Your task to perform on an android device: Clear the shopping cart on walmart.com. Search for logitech g910 on walmart.com, select the first entry, and add it to the cart. Image 0: 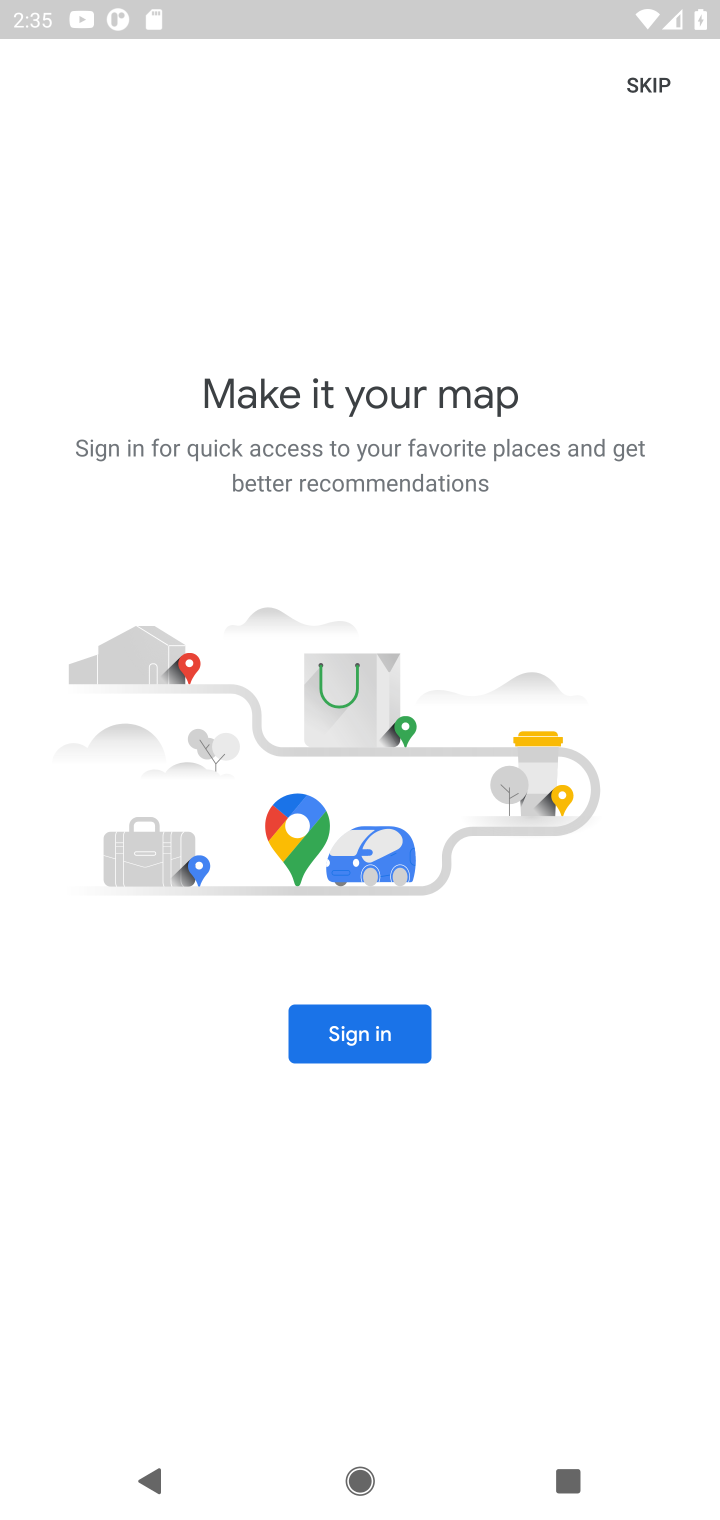
Step 0: press home button
Your task to perform on an android device: Clear the shopping cart on walmart.com. Search for logitech g910 on walmart.com, select the first entry, and add it to the cart. Image 1: 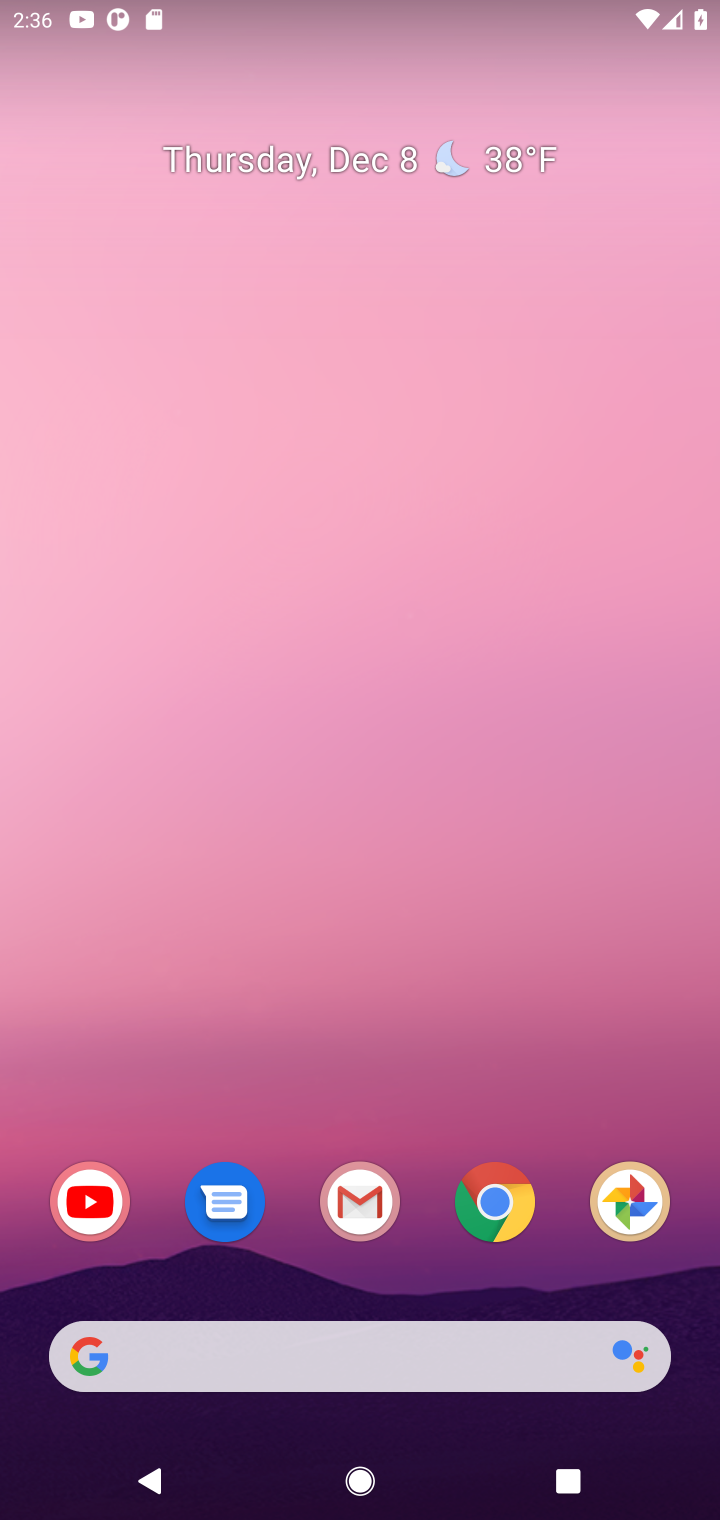
Step 1: click (508, 1194)
Your task to perform on an android device: Clear the shopping cart on walmart.com. Search for logitech g910 on walmart.com, select the first entry, and add it to the cart. Image 2: 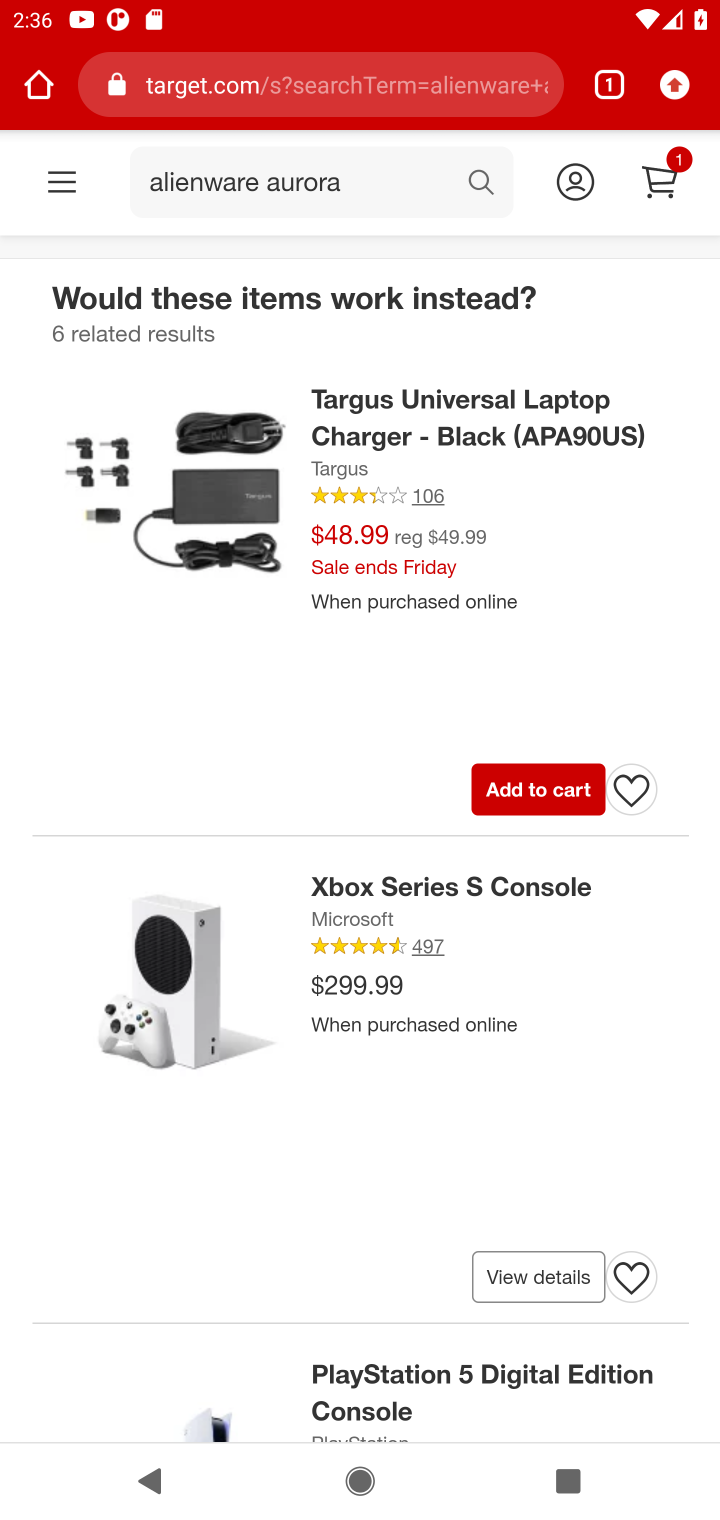
Step 2: click (434, 89)
Your task to perform on an android device: Clear the shopping cart on walmart.com. Search for logitech g910 on walmart.com, select the first entry, and add it to the cart. Image 3: 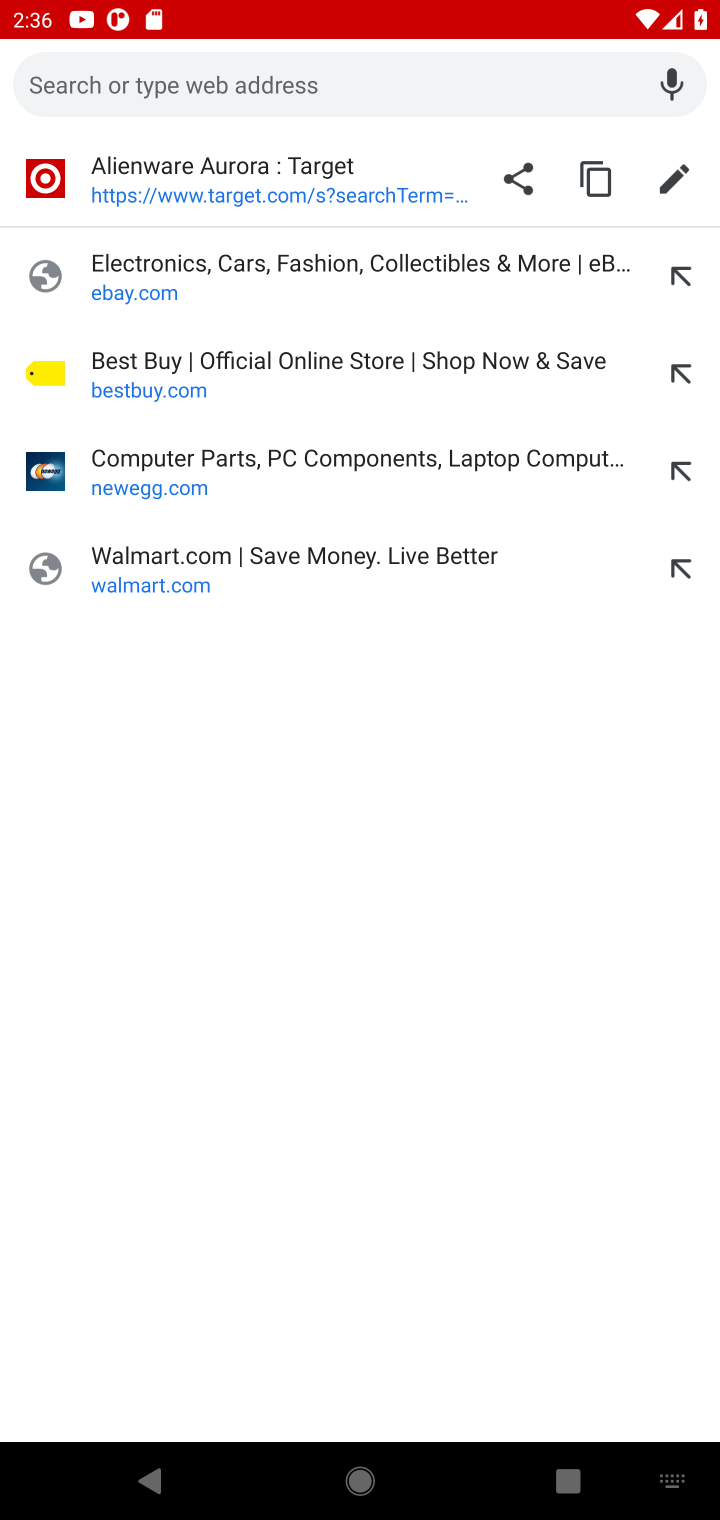
Step 3: click (327, 552)
Your task to perform on an android device: Clear the shopping cart on walmart.com. Search for logitech g910 on walmart.com, select the first entry, and add it to the cart. Image 4: 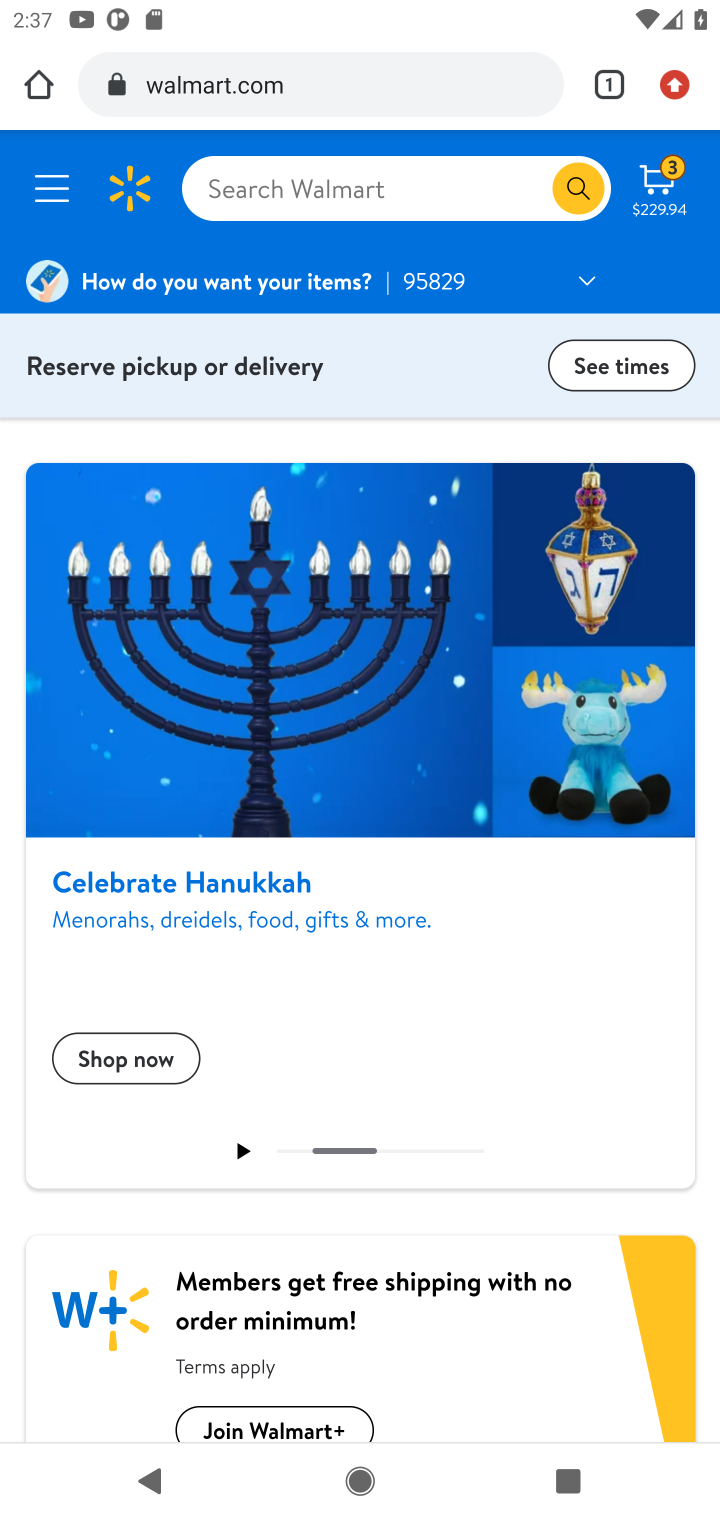
Step 4: click (656, 189)
Your task to perform on an android device: Clear the shopping cart on walmart.com. Search for logitech g910 on walmart.com, select the first entry, and add it to the cart. Image 5: 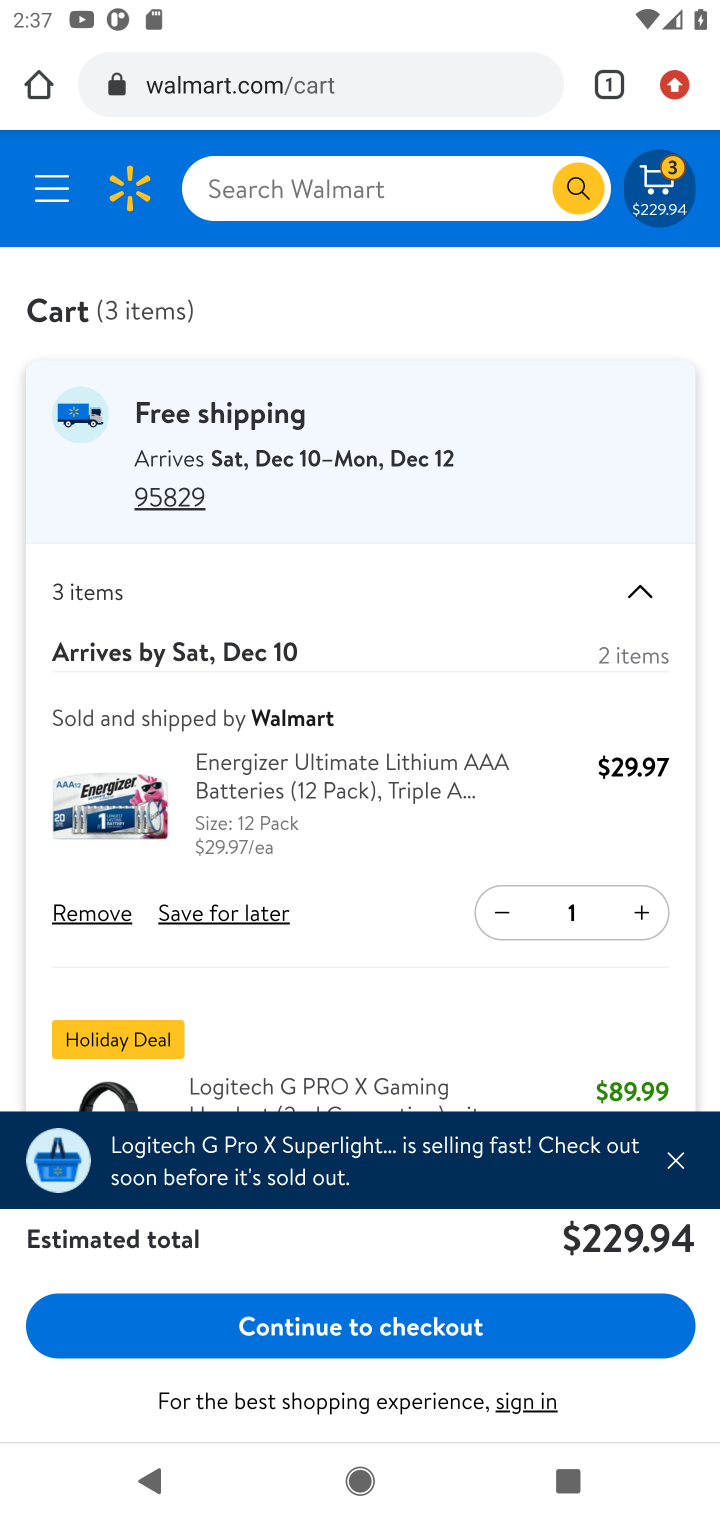
Step 5: click (74, 915)
Your task to perform on an android device: Clear the shopping cart on walmart.com. Search for logitech g910 on walmart.com, select the first entry, and add it to the cart. Image 6: 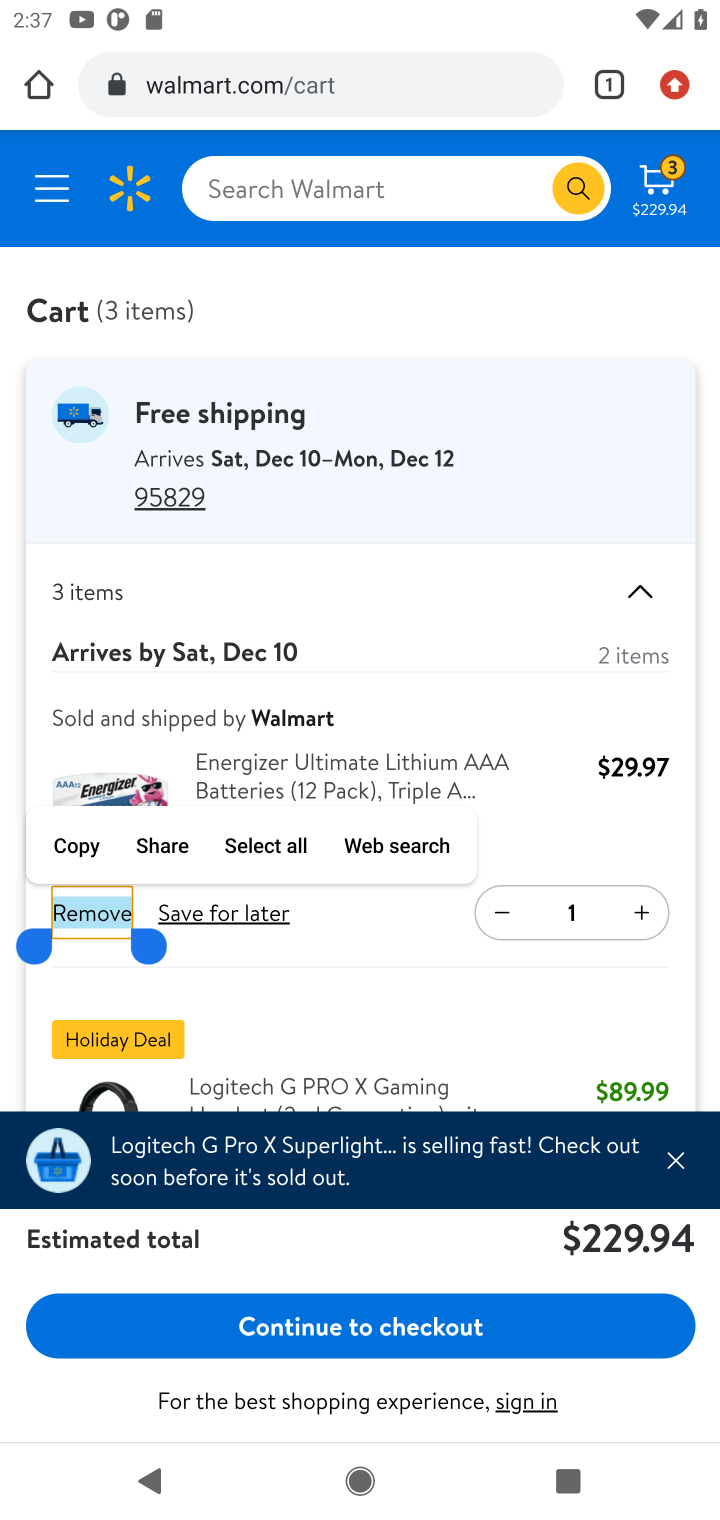
Step 6: click (299, 965)
Your task to perform on an android device: Clear the shopping cart on walmart.com. Search for logitech g910 on walmart.com, select the first entry, and add it to the cart. Image 7: 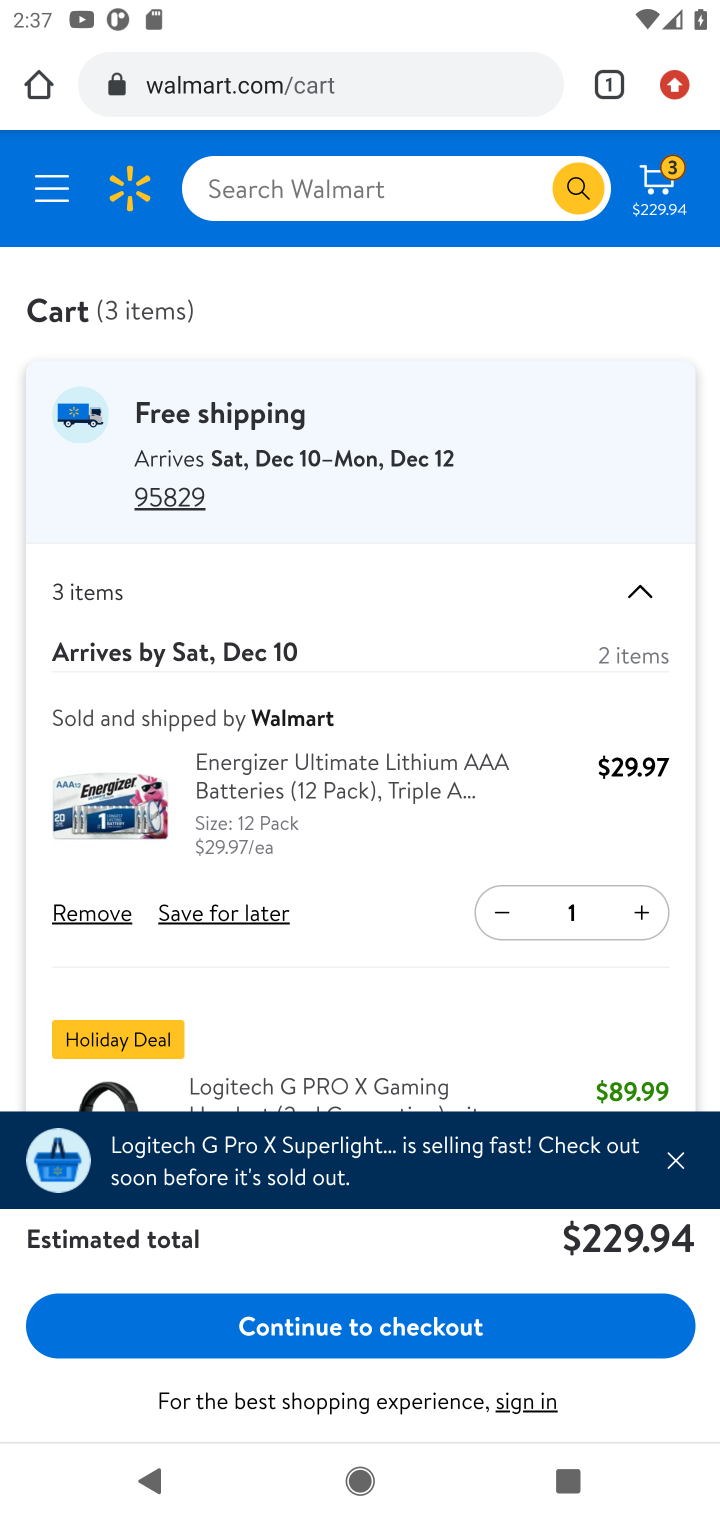
Step 7: click (95, 916)
Your task to perform on an android device: Clear the shopping cart on walmart.com. Search for logitech g910 on walmart.com, select the first entry, and add it to the cart. Image 8: 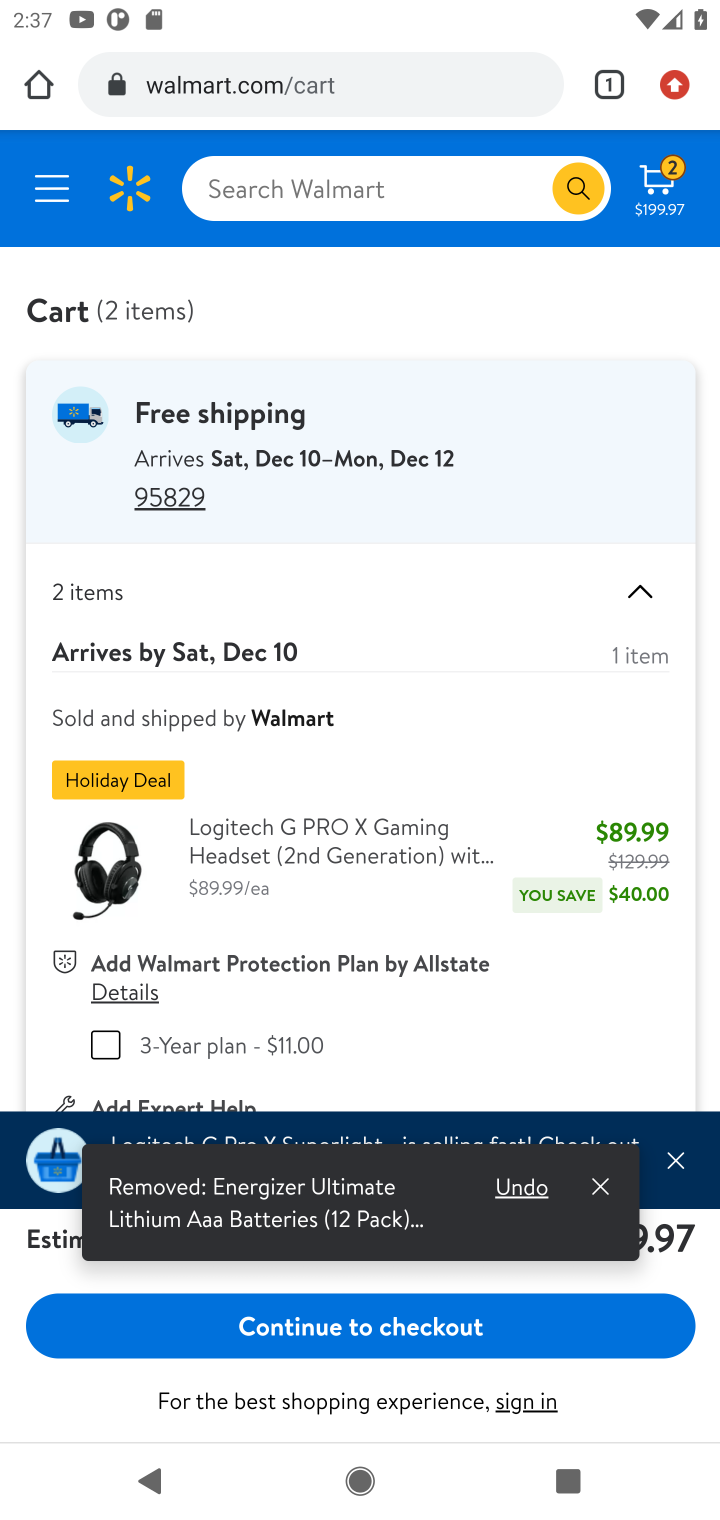
Step 8: drag from (465, 962) to (537, 394)
Your task to perform on an android device: Clear the shopping cart on walmart.com. Search for logitech g910 on walmart.com, select the first entry, and add it to the cart. Image 9: 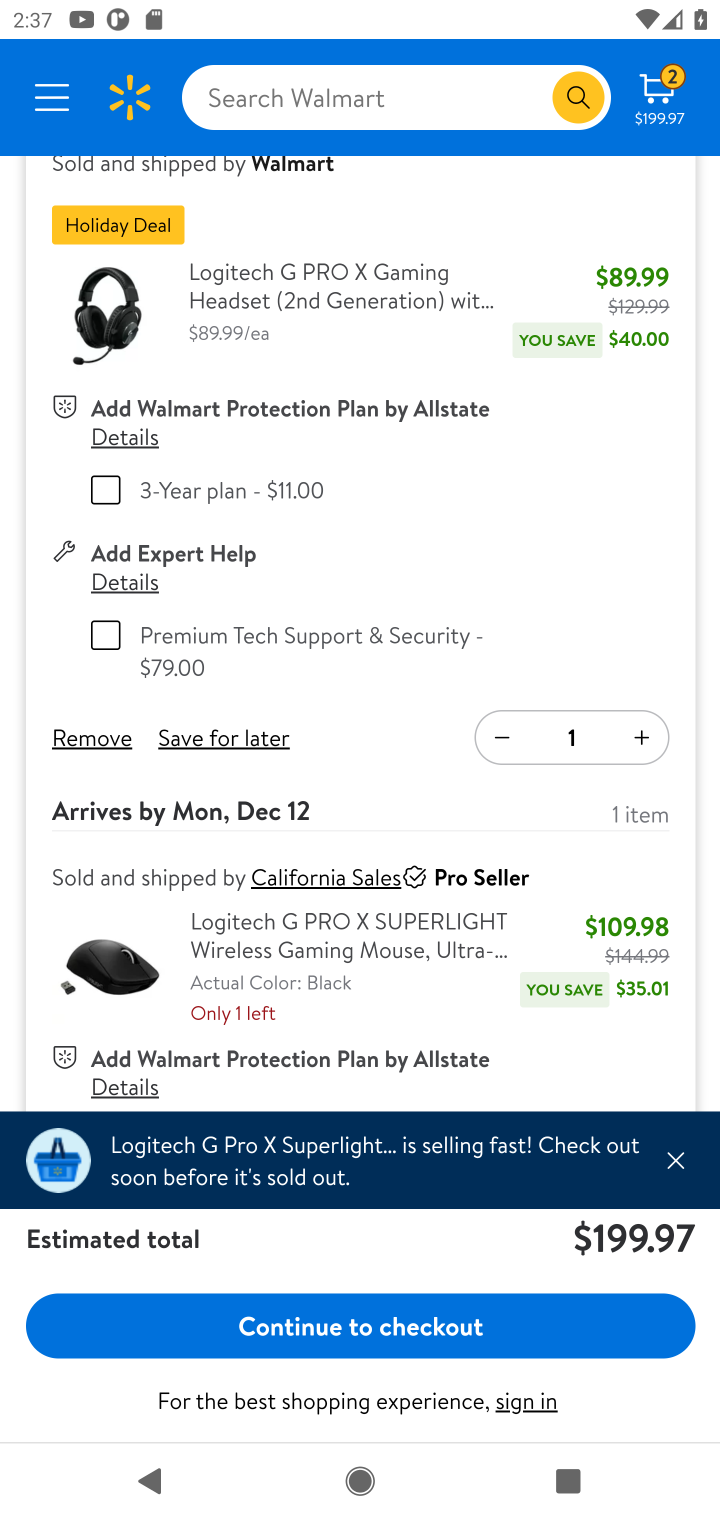
Step 9: click (104, 736)
Your task to perform on an android device: Clear the shopping cart on walmart.com. Search for logitech g910 on walmart.com, select the first entry, and add it to the cart. Image 10: 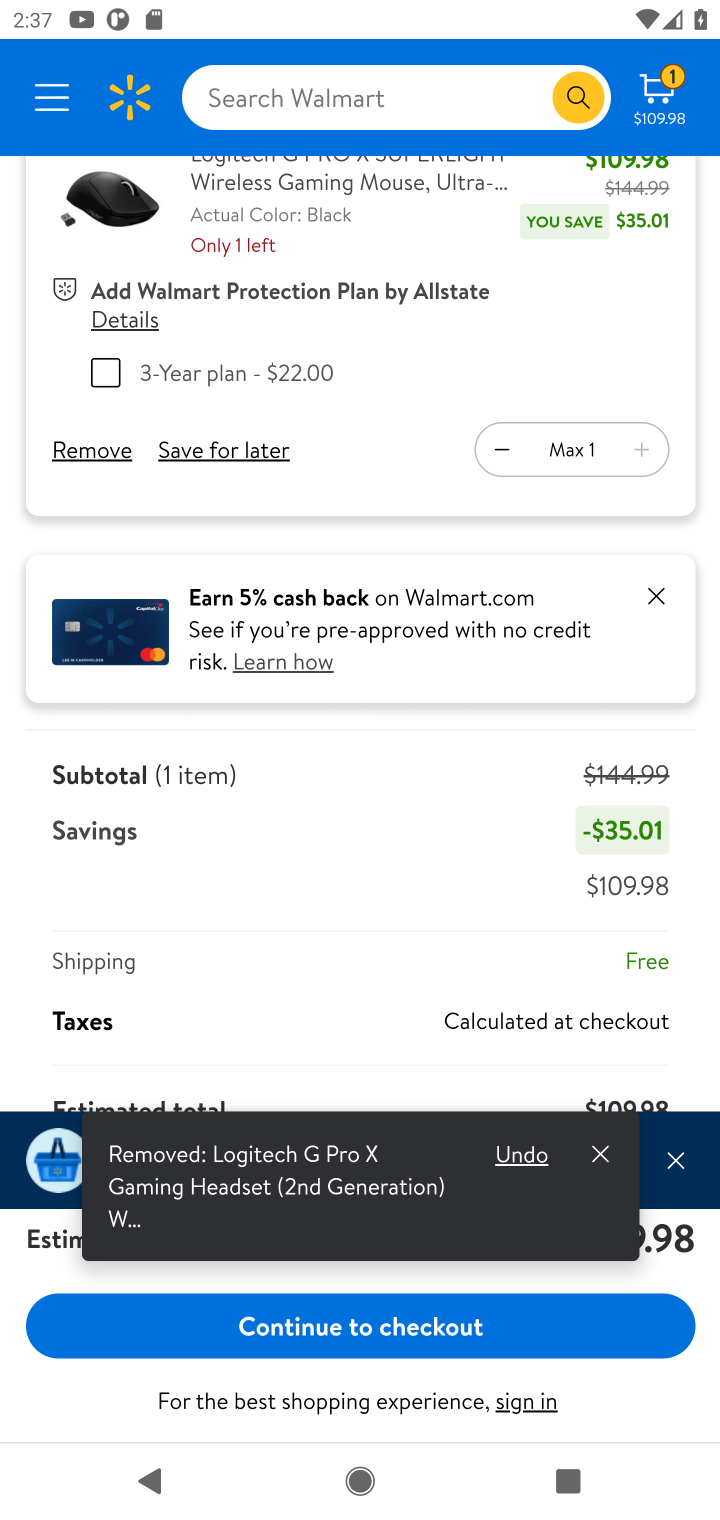
Step 10: click (89, 444)
Your task to perform on an android device: Clear the shopping cart on walmart.com. Search for logitech g910 on walmart.com, select the first entry, and add it to the cart. Image 11: 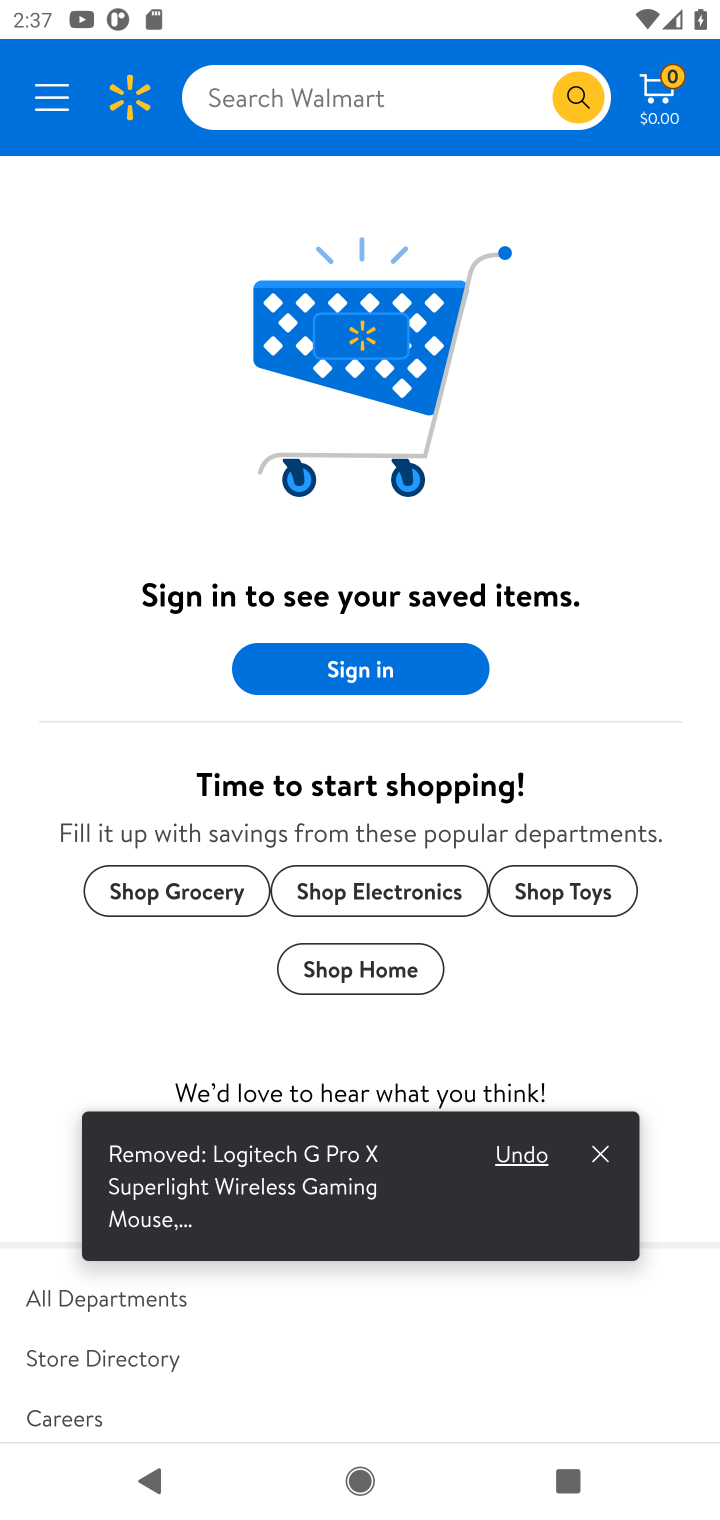
Step 11: drag from (549, 401) to (544, 741)
Your task to perform on an android device: Clear the shopping cart on walmart.com. Search for logitech g910 on walmart.com, select the first entry, and add it to the cart. Image 12: 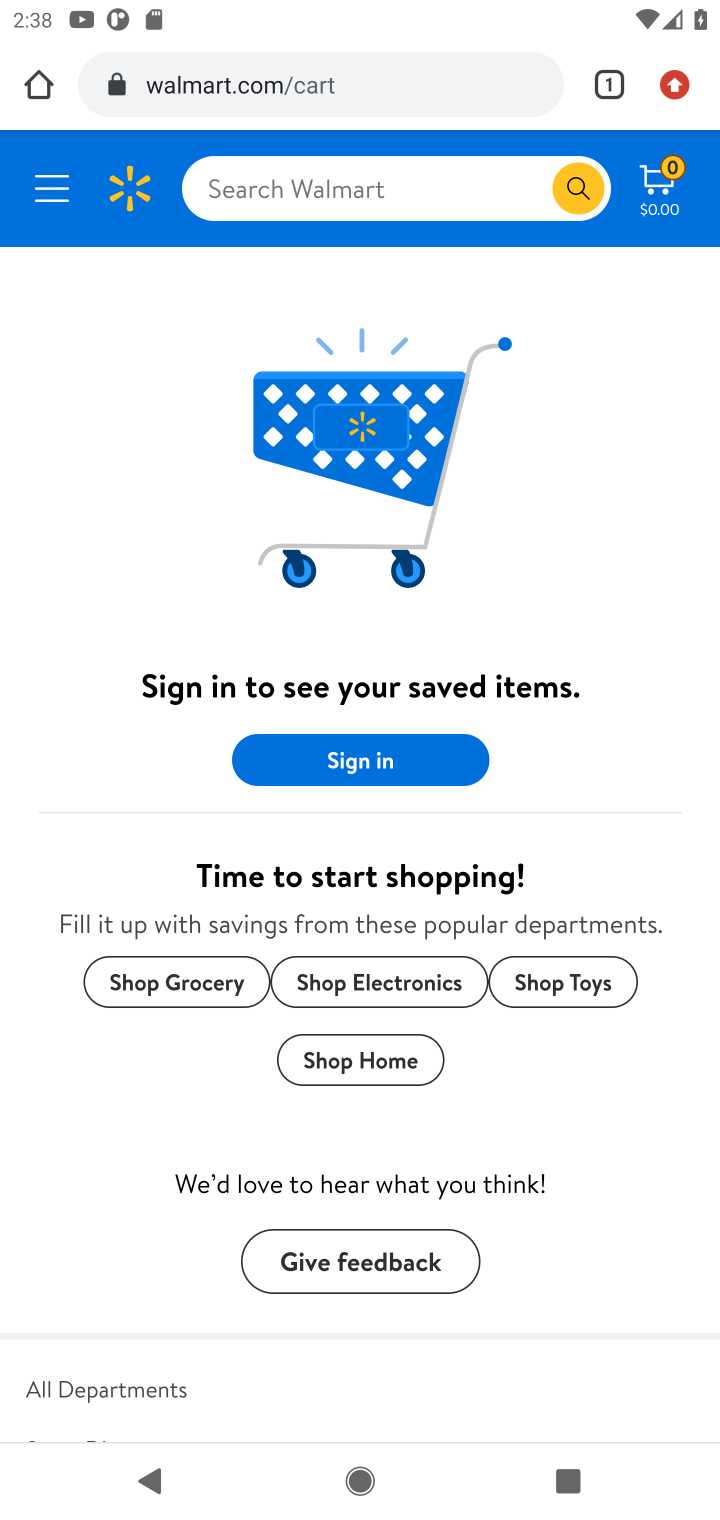
Step 12: click (422, 185)
Your task to perform on an android device: Clear the shopping cart on walmart.com. Search for logitech g910 on walmart.com, select the first entry, and add it to the cart. Image 13: 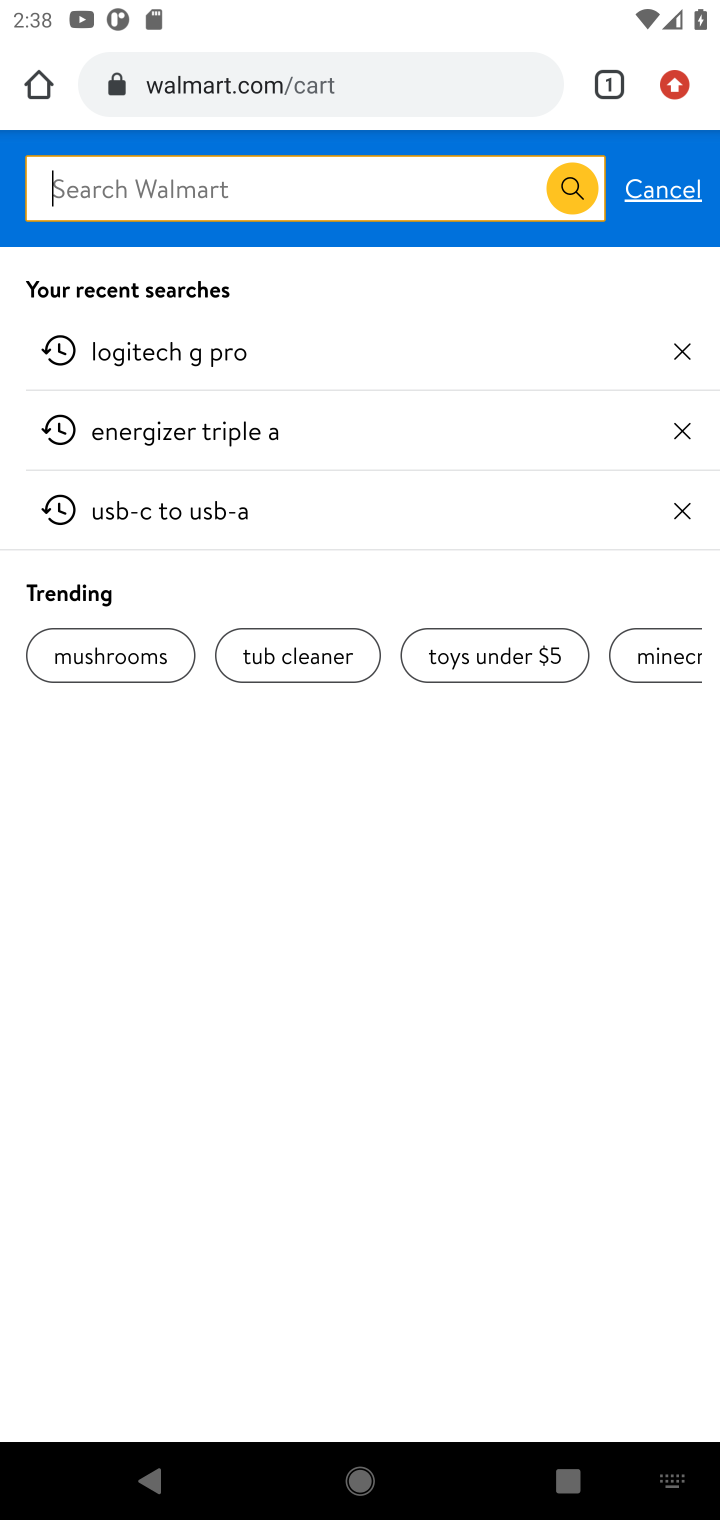
Step 13: press enter
Your task to perform on an android device: Clear the shopping cart on walmart.com. Search for logitech g910 on walmart.com, select the first entry, and add it to the cart. Image 14: 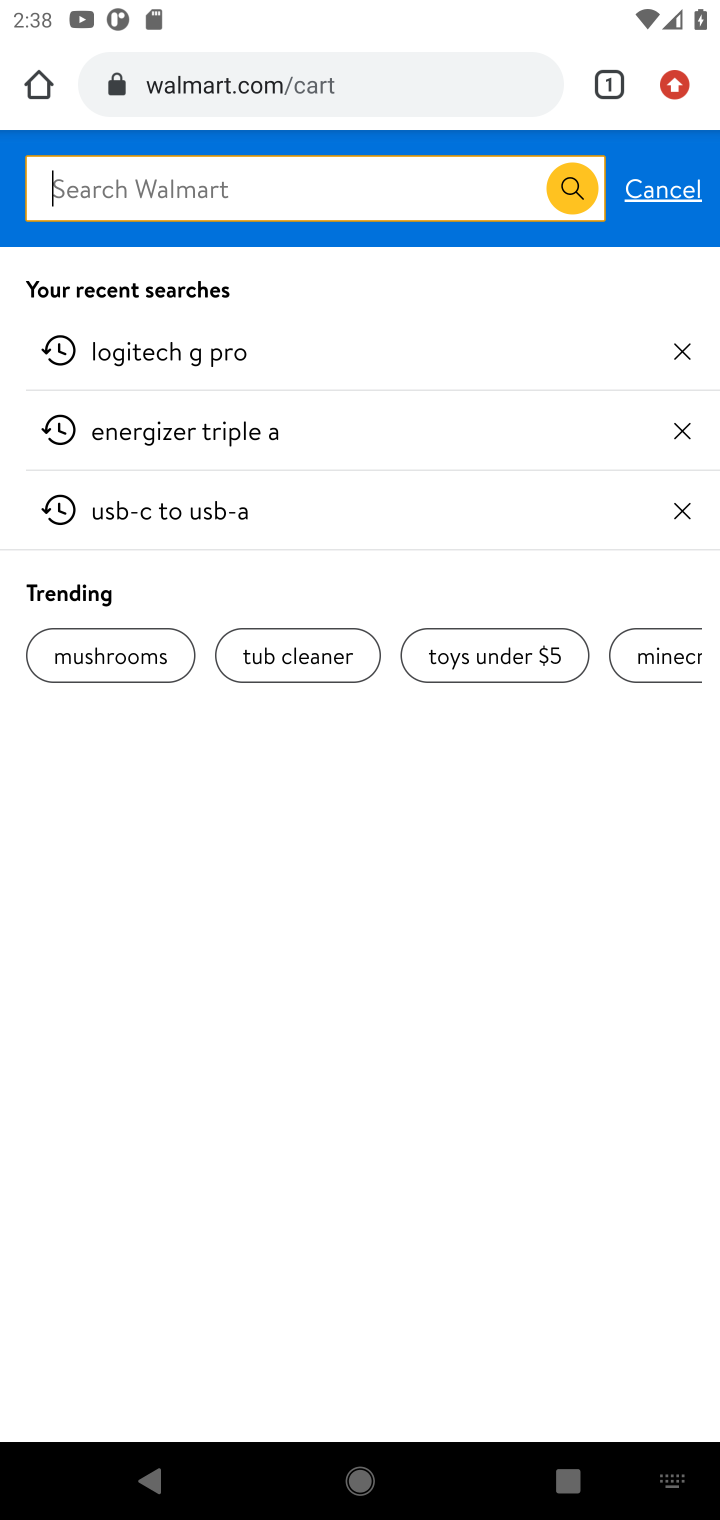
Step 14: type " logitech g910"
Your task to perform on an android device: Clear the shopping cart on walmart.com. Search for logitech g910 on walmart.com, select the first entry, and add it to the cart. Image 15: 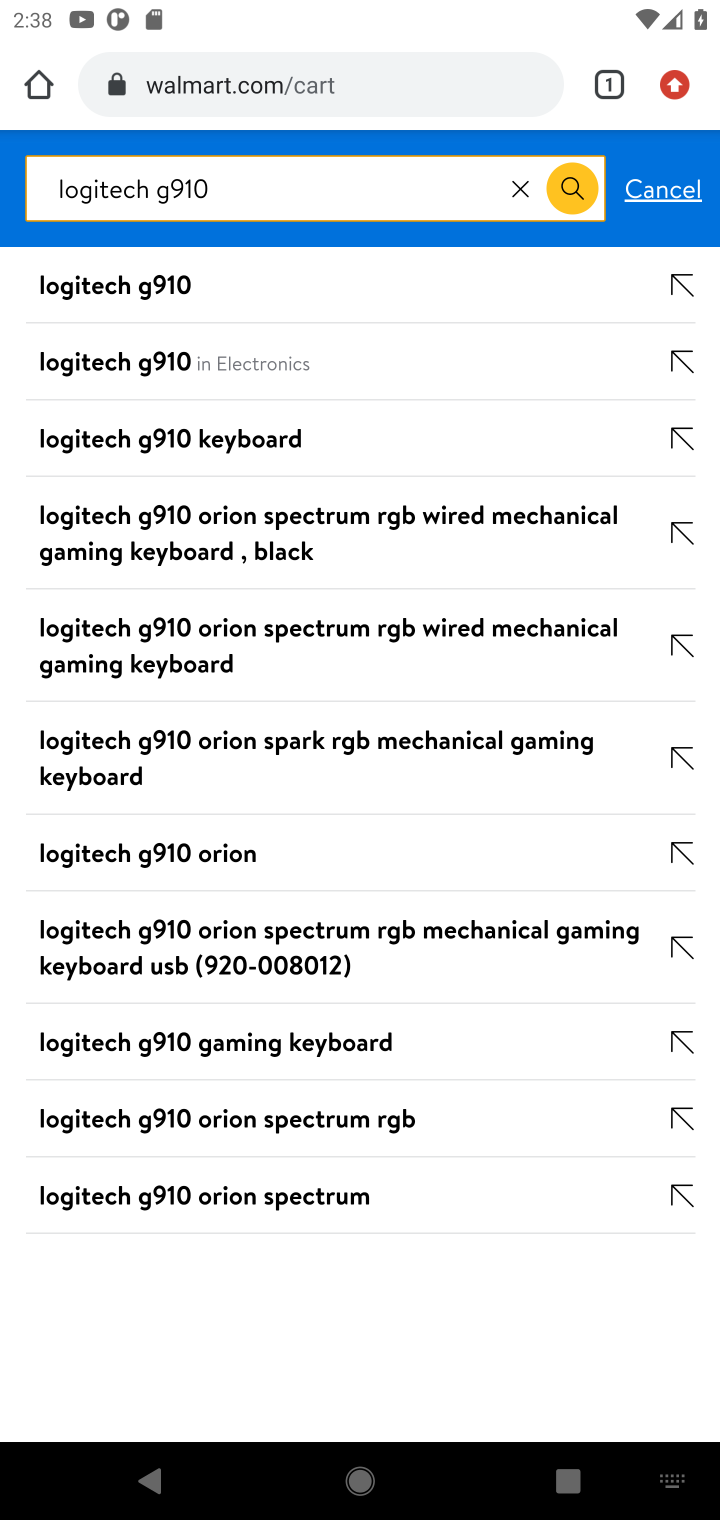
Step 15: click (159, 279)
Your task to perform on an android device: Clear the shopping cart on walmart.com. Search for logitech g910 on walmart.com, select the first entry, and add it to the cart. Image 16: 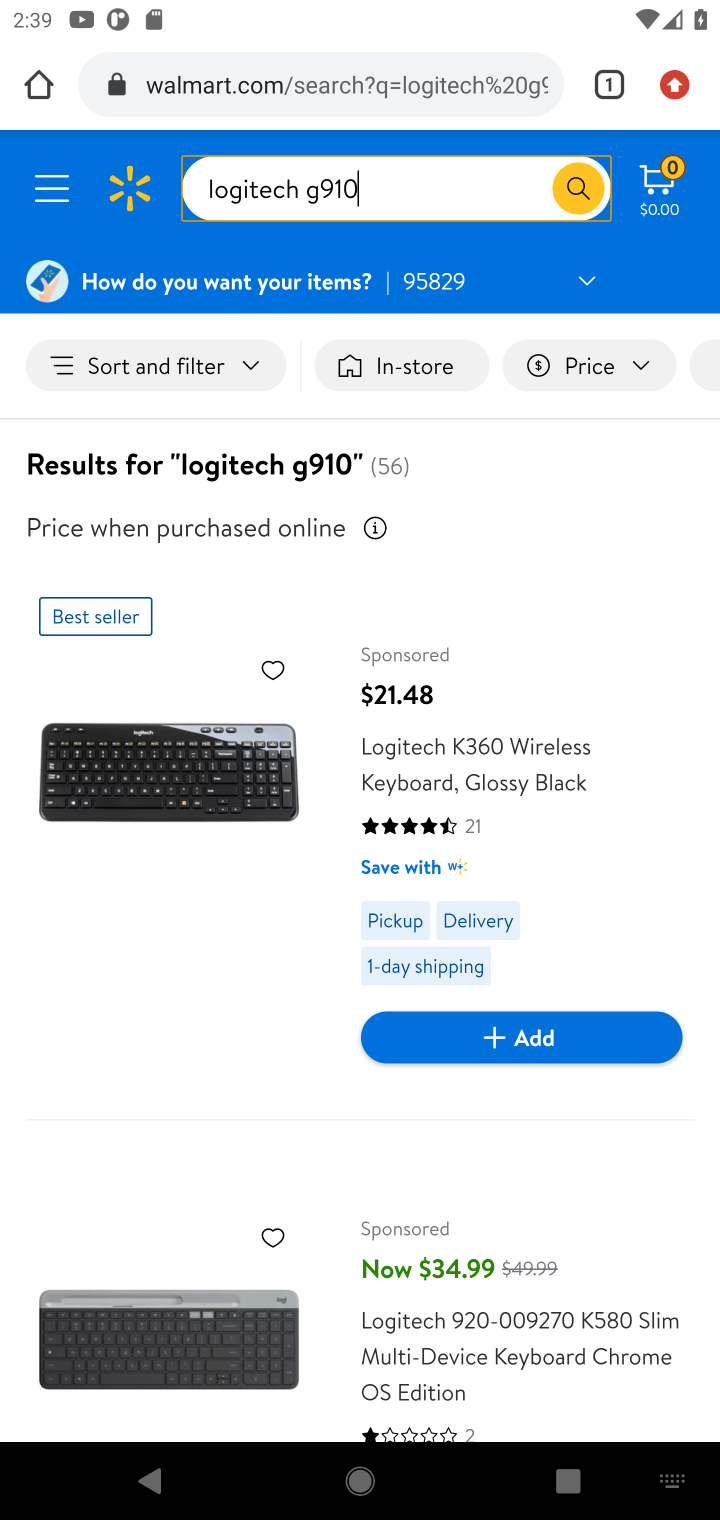
Step 16: drag from (631, 1208) to (553, 609)
Your task to perform on an android device: Clear the shopping cart on walmart.com. Search for logitech g910 on walmart.com, select the first entry, and add it to the cart. Image 17: 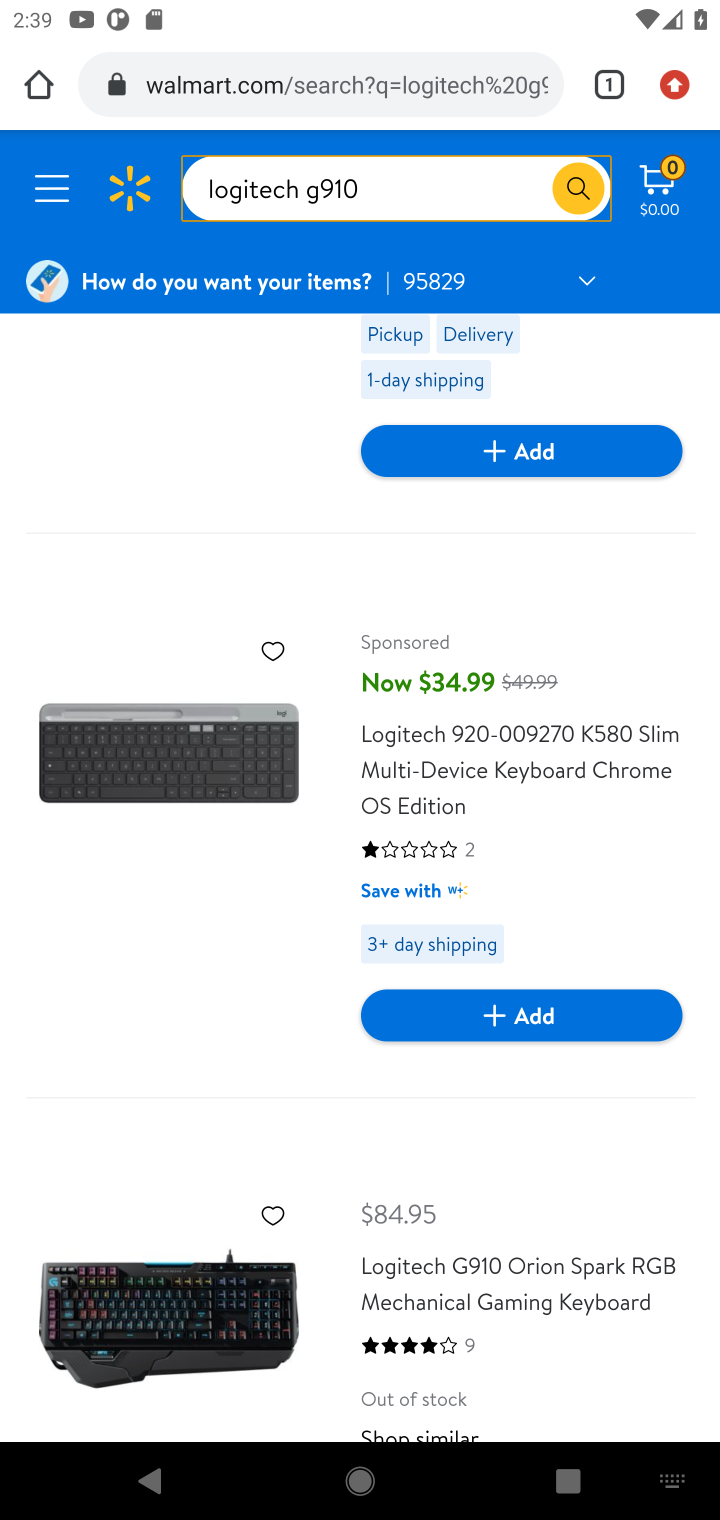
Step 17: click (129, 1297)
Your task to perform on an android device: Clear the shopping cart on walmart.com. Search for logitech g910 on walmart.com, select the first entry, and add it to the cart. Image 18: 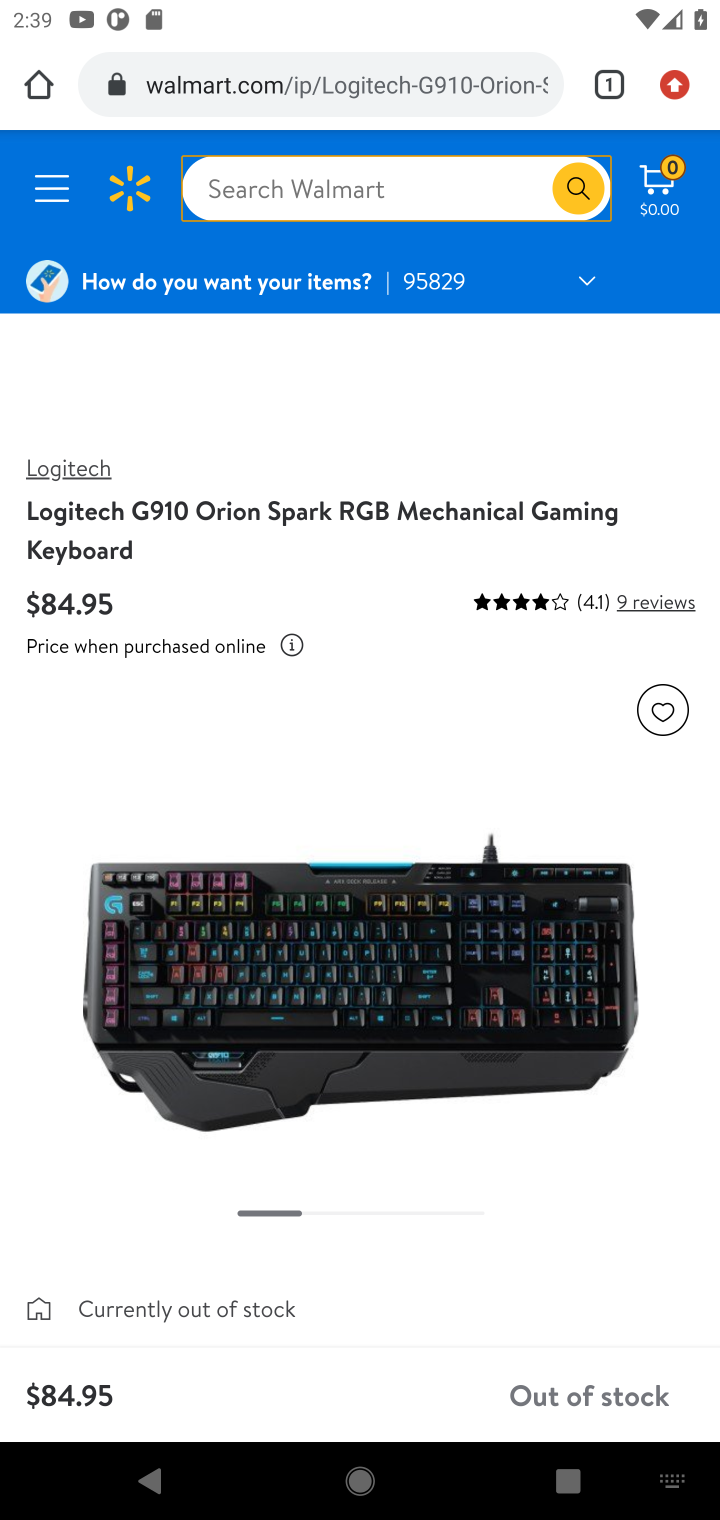
Step 18: drag from (452, 999) to (401, 319)
Your task to perform on an android device: Clear the shopping cart on walmart.com. Search for logitech g910 on walmart.com, select the first entry, and add it to the cart. Image 19: 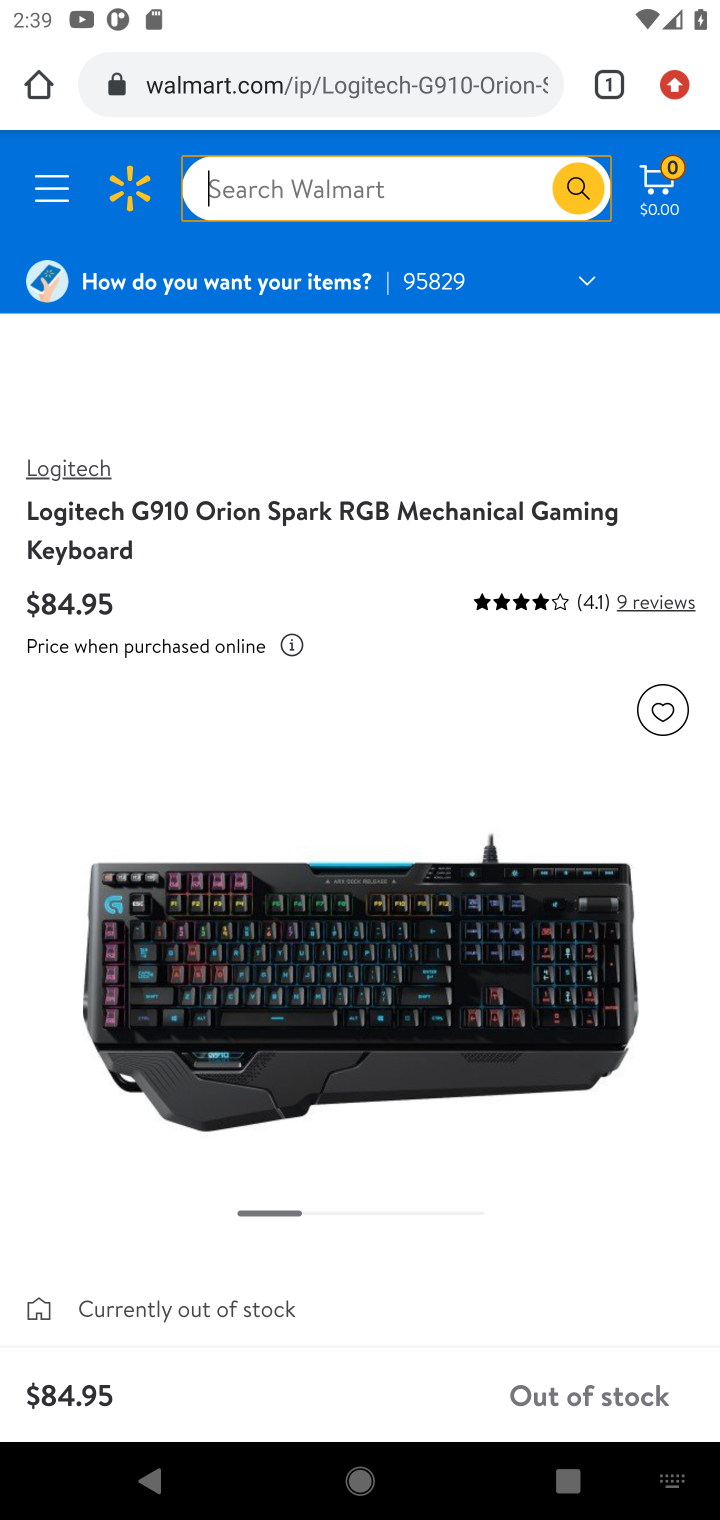
Step 19: drag from (398, 1079) to (454, 596)
Your task to perform on an android device: Clear the shopping cart on walmart.com. Search for logitech g910 on walmart.com, select the first entry, and add it to the cart. Image 20: 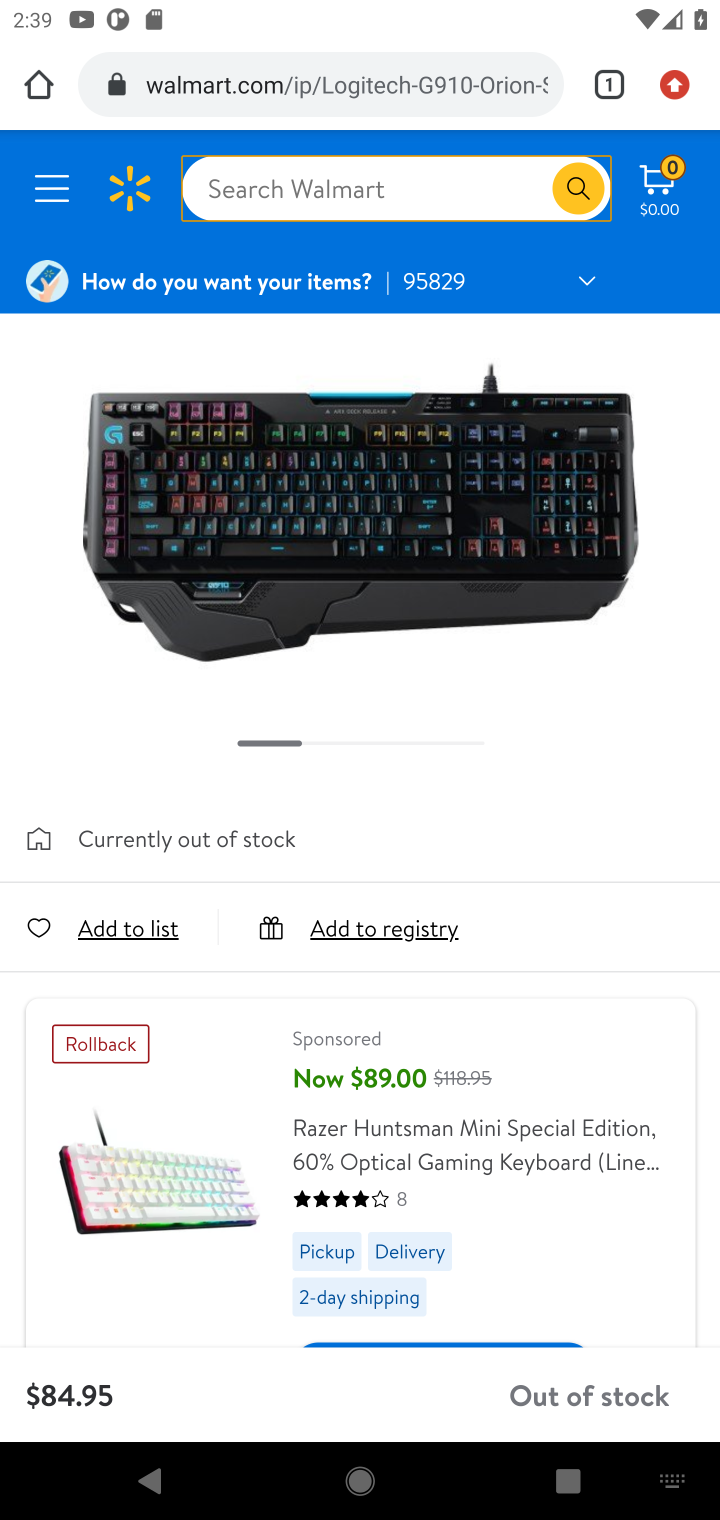
Step 20: drag from (586, 984) to (621, 551)
Your task to perform on an android device: Clear the shopping cart on walmart.com. Search for logitech g910 on walmart.com, select the first entry, and add it to the cart. Image 21: 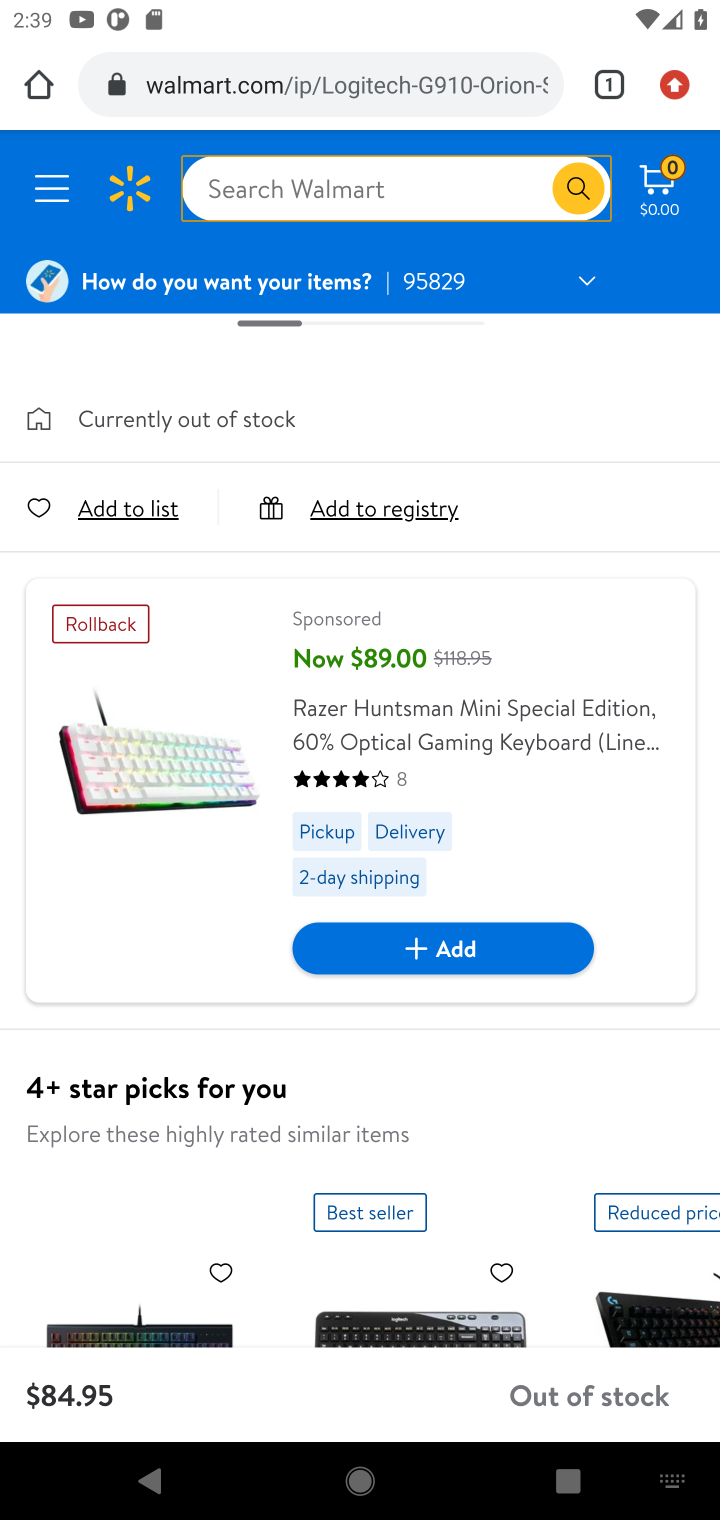
Step 21: drag from (592, 1050) to (684, 1465)
Your task to perform on an android device: Clear the shopping cart on walmart.com. Search for logitech g910 on walmart.com, select the first entry, and add it to the cart. Image 22: 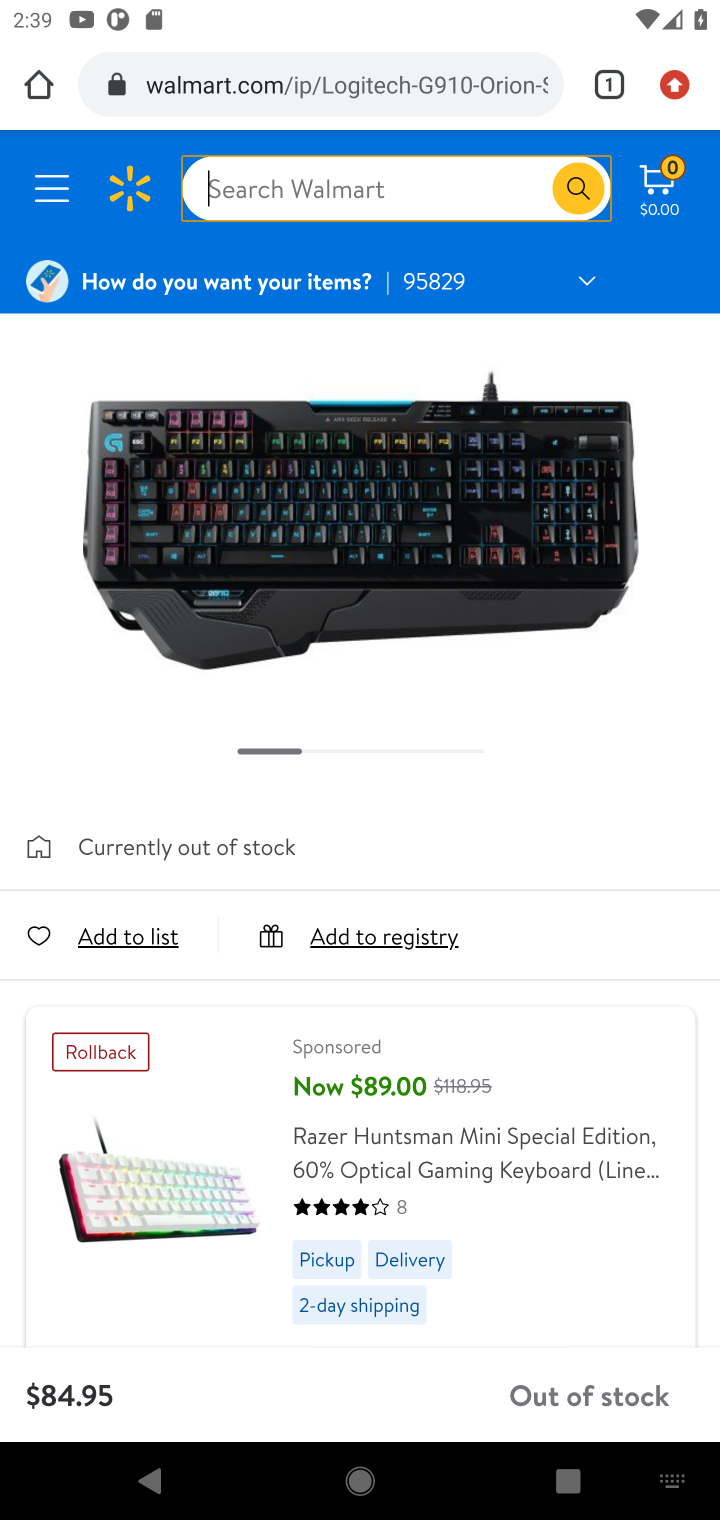
Step 22: press back button
Your task to perform on an android device: Clear the shopping cart on walmart.com. Search for logitech g910 on walmart.com, select the first entry, and add it to the cart. Image 23: 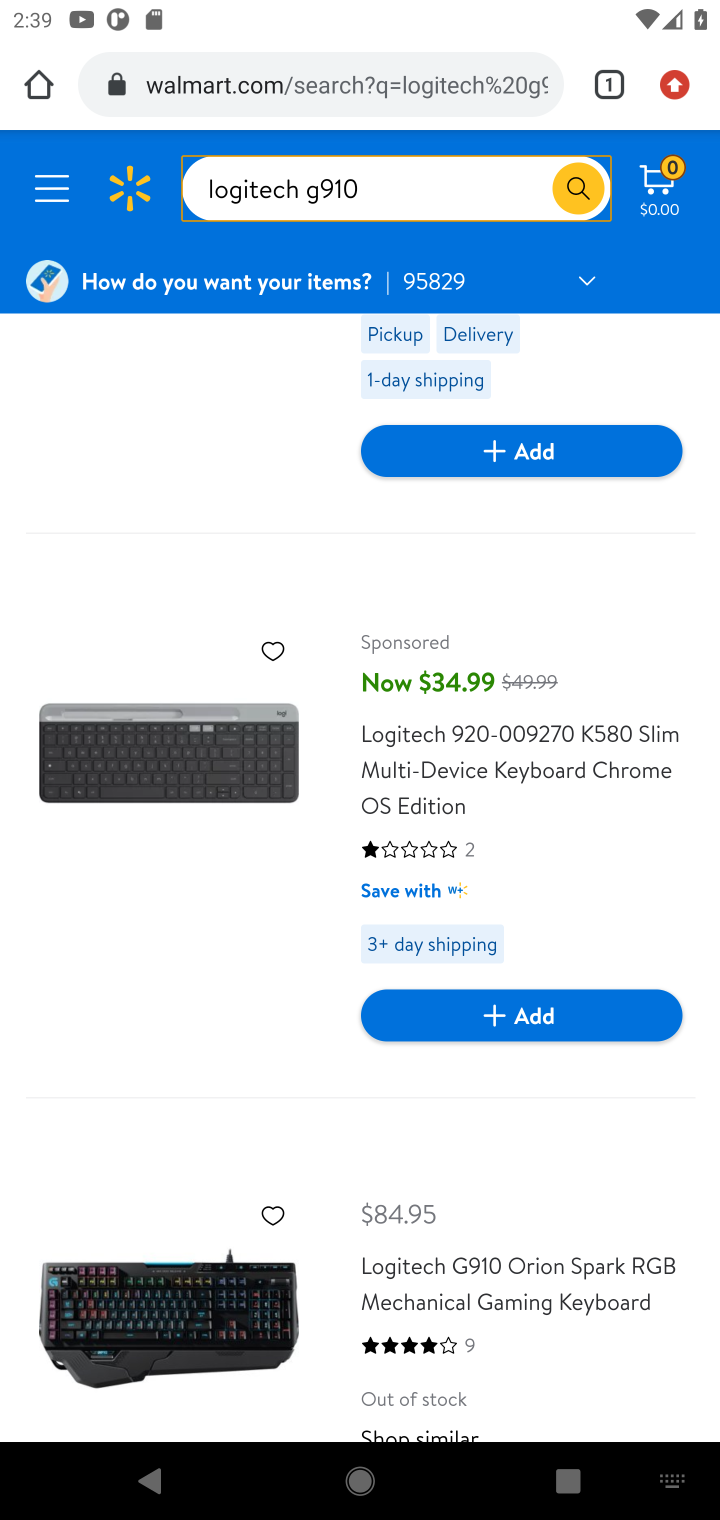
Step 23: drag from (605, 1149) to (702, 401)
Your task to perform on an android device: Clear the shopping cart on walmart.com. Search for logitech g910 on walmart.com, select the first entry, and add it to the cart. Image 24: 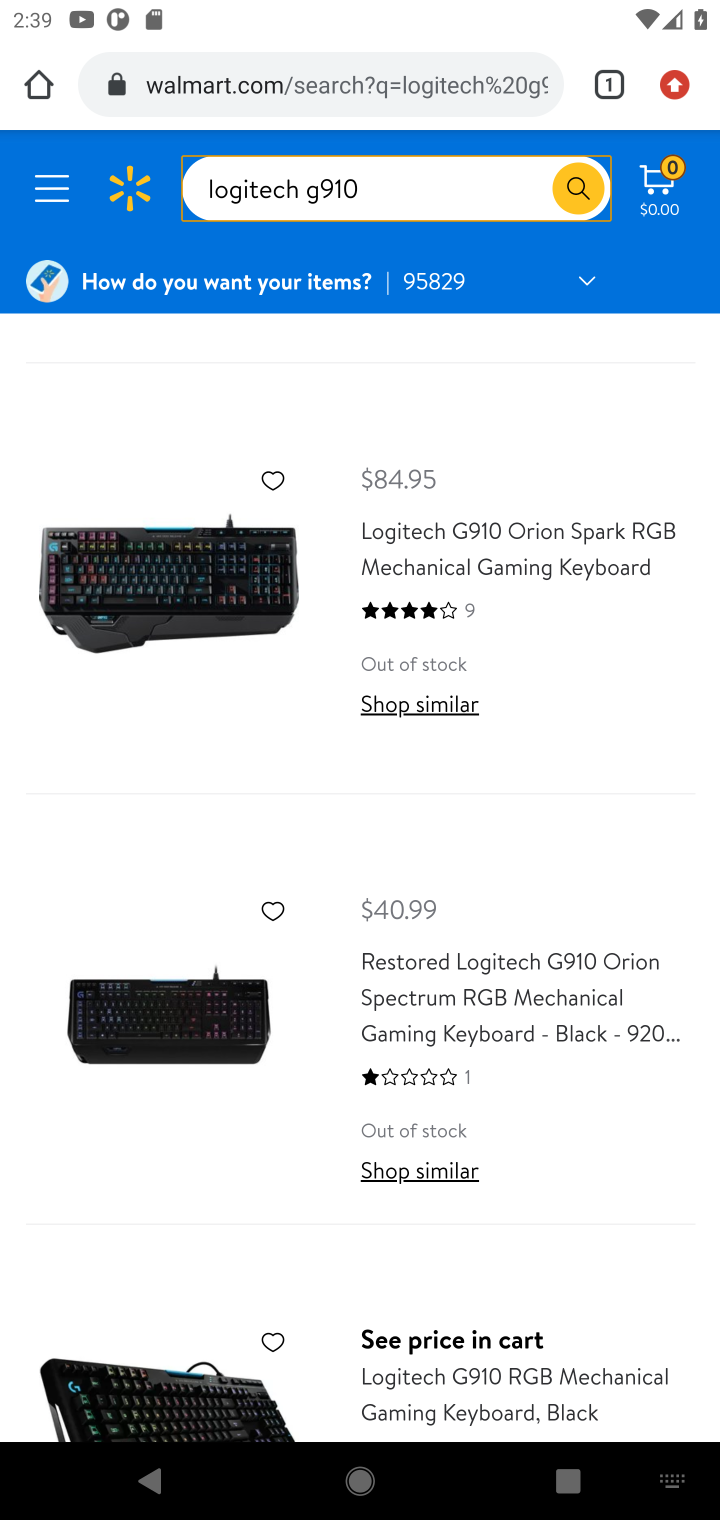
Step 24: drag from (584, 1058) to (598, 503)
Your task to perform on an android device: Clear the shopping cart on walmart.com. Search for logitech g910 on walmart.com, select the first entry, and add it to the cart. Image 25: 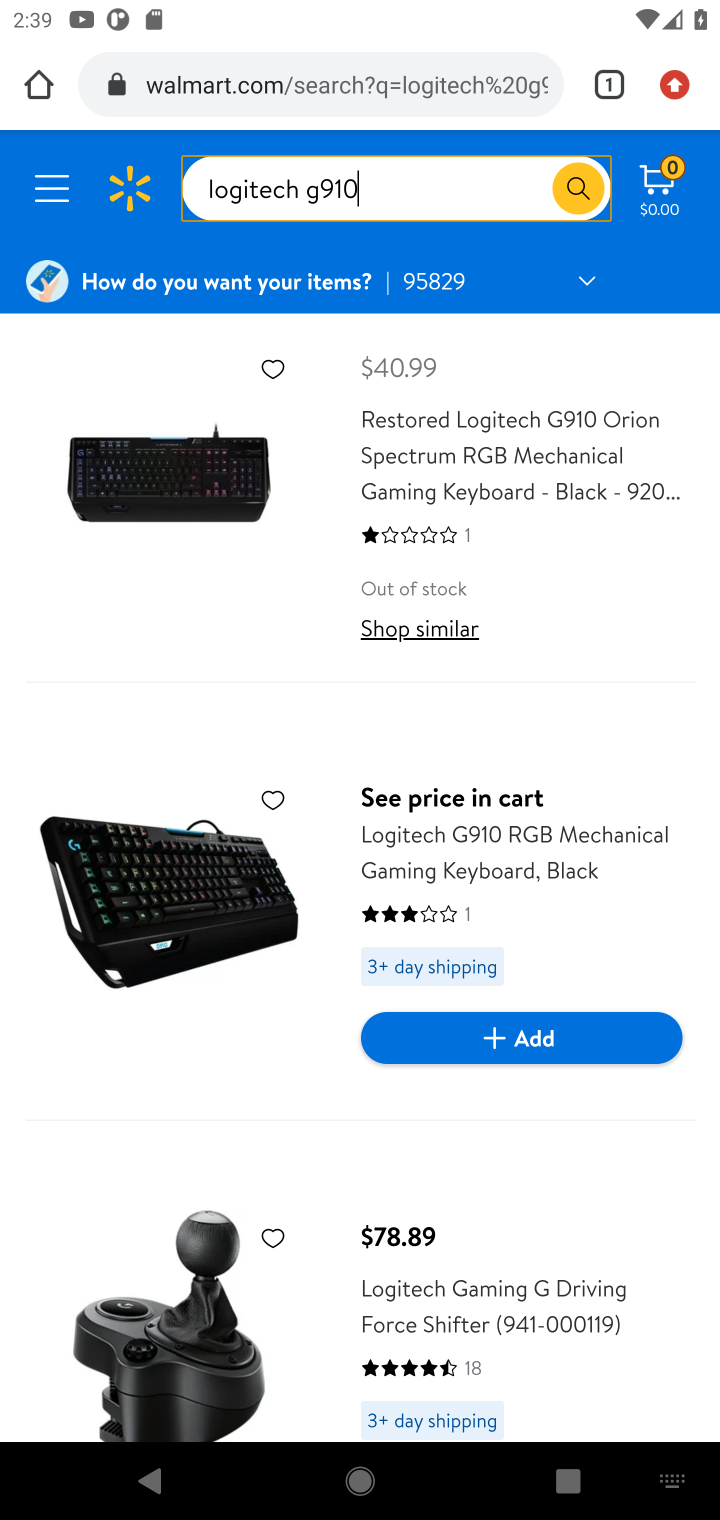
Step 25: drag from (492, 815) to (574, 566)
Your task to perform on an android device: Clear the shopping cart on walmart.com. Search for logitech g910 on walmart.com, select the first entry, and add it to the cart. Image 26: 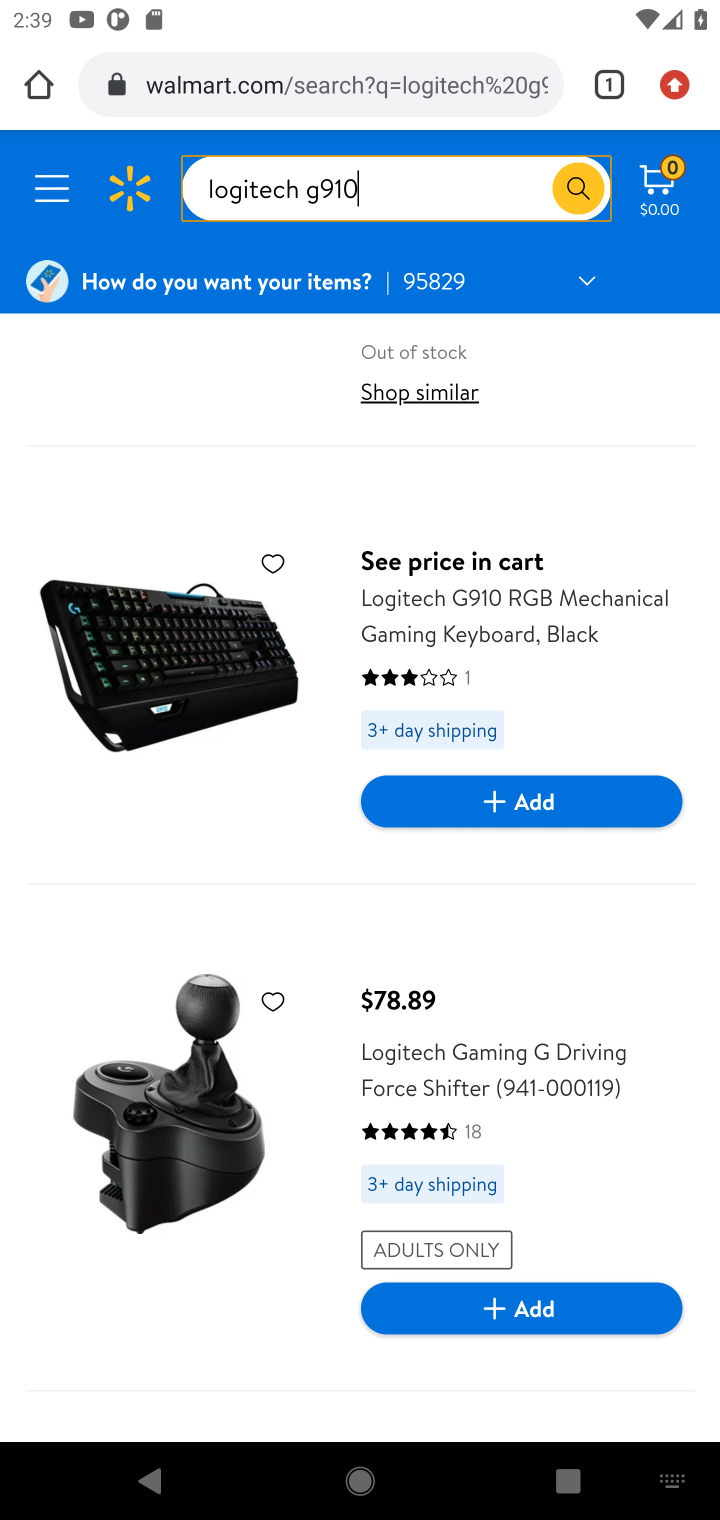
Step 26: drag from (516, 1094) to (489, 580)
Your task to perform on an android device: Clear the shopping cart on walmart.com. Search for logitech g910 on walmart.com, select the first entry, and add it to the cart. Image 27: 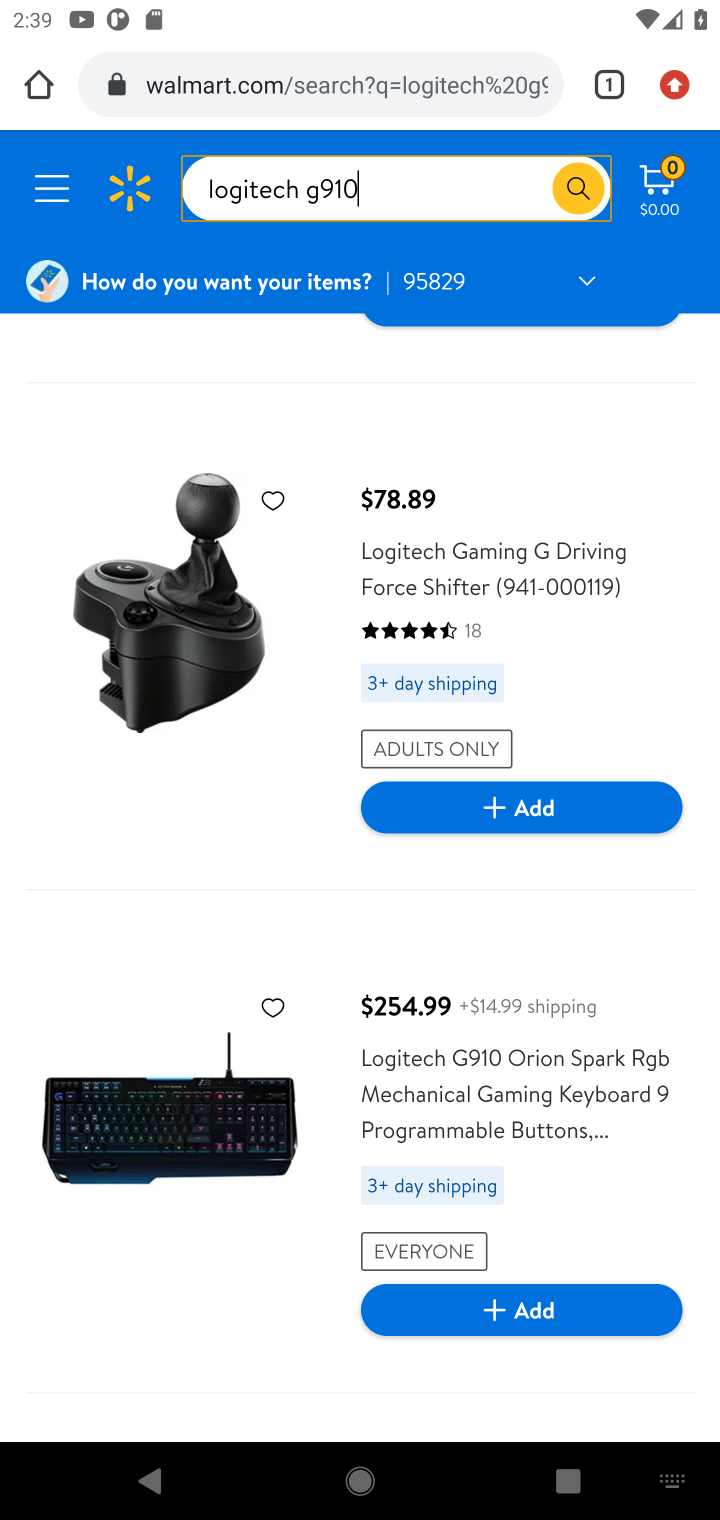
Step 27: click (175, 1111)
Your task to perform on an android device: Clear the shopping cart on walmart.com. Search for logitech g910 on walmart.com, select the first entry, and add it to the cart. Image 28: 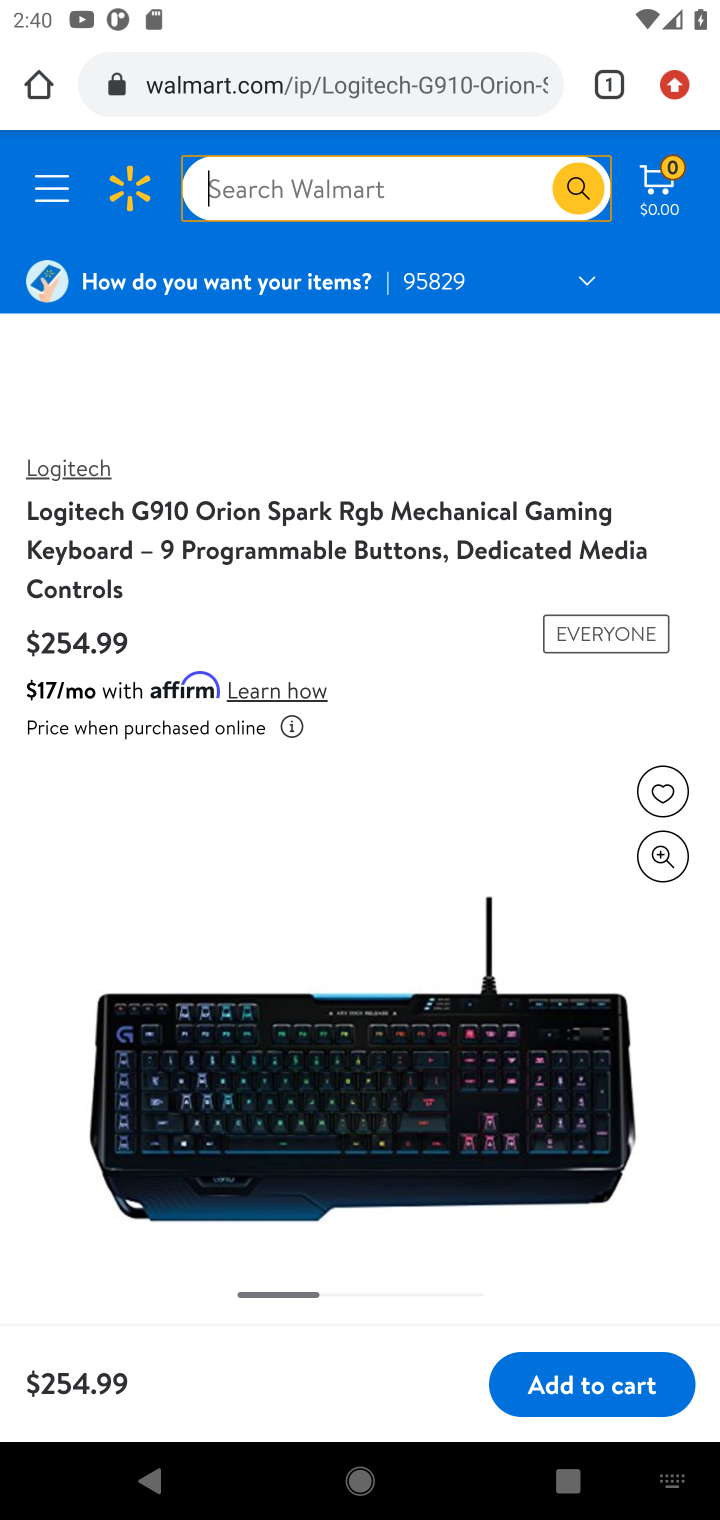
Step 28: click (608, 1399)
Your task to perform on an android device: Clear the shopping cart on walmart.com. Search for logitech g910 on walmart.com, select the first entry, and add it to the cart. Image 29: 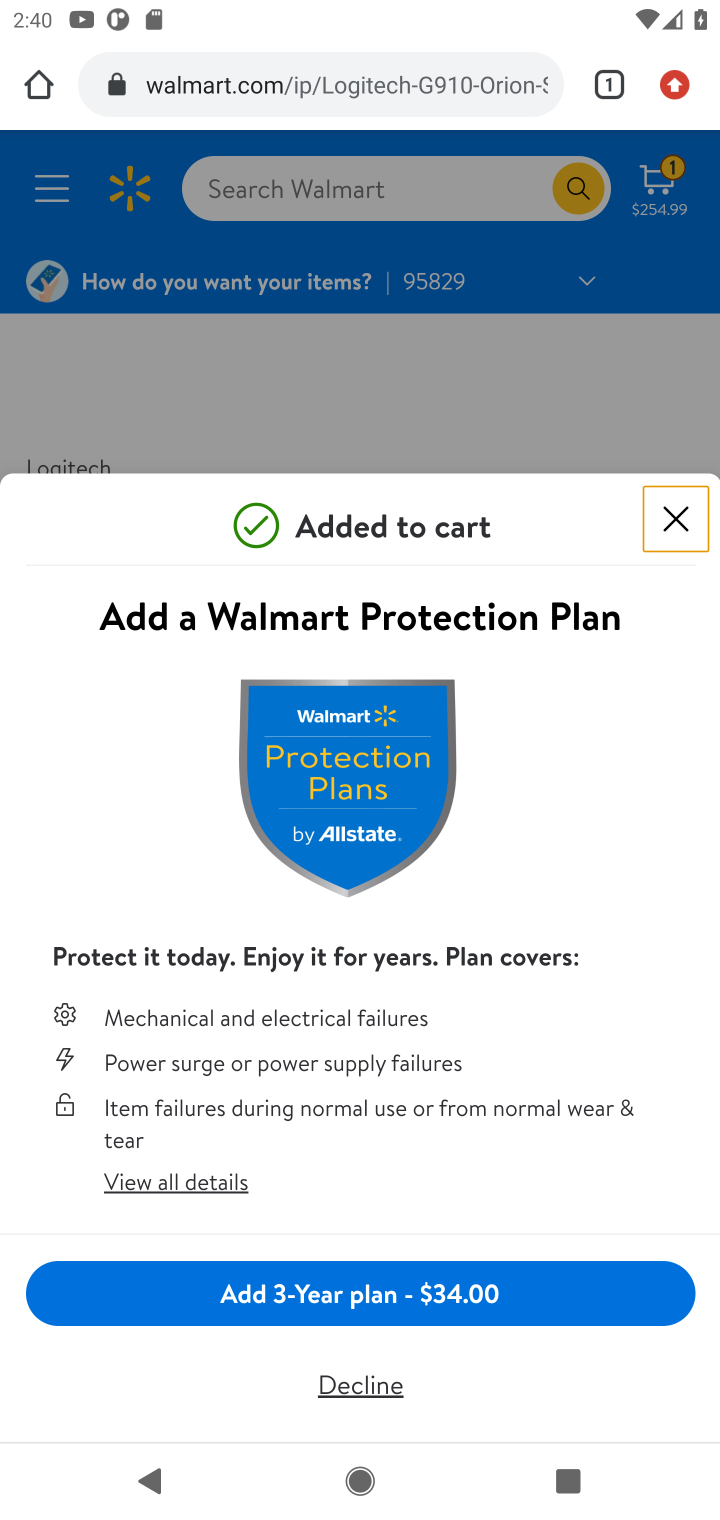
Step 29: click (668, 521)
Your task to perform on an android device: Clear the shopping cart on walmart.com. Search for logitech g910 on walmart.com, select the first entry, and add it to the cart. Image 30: 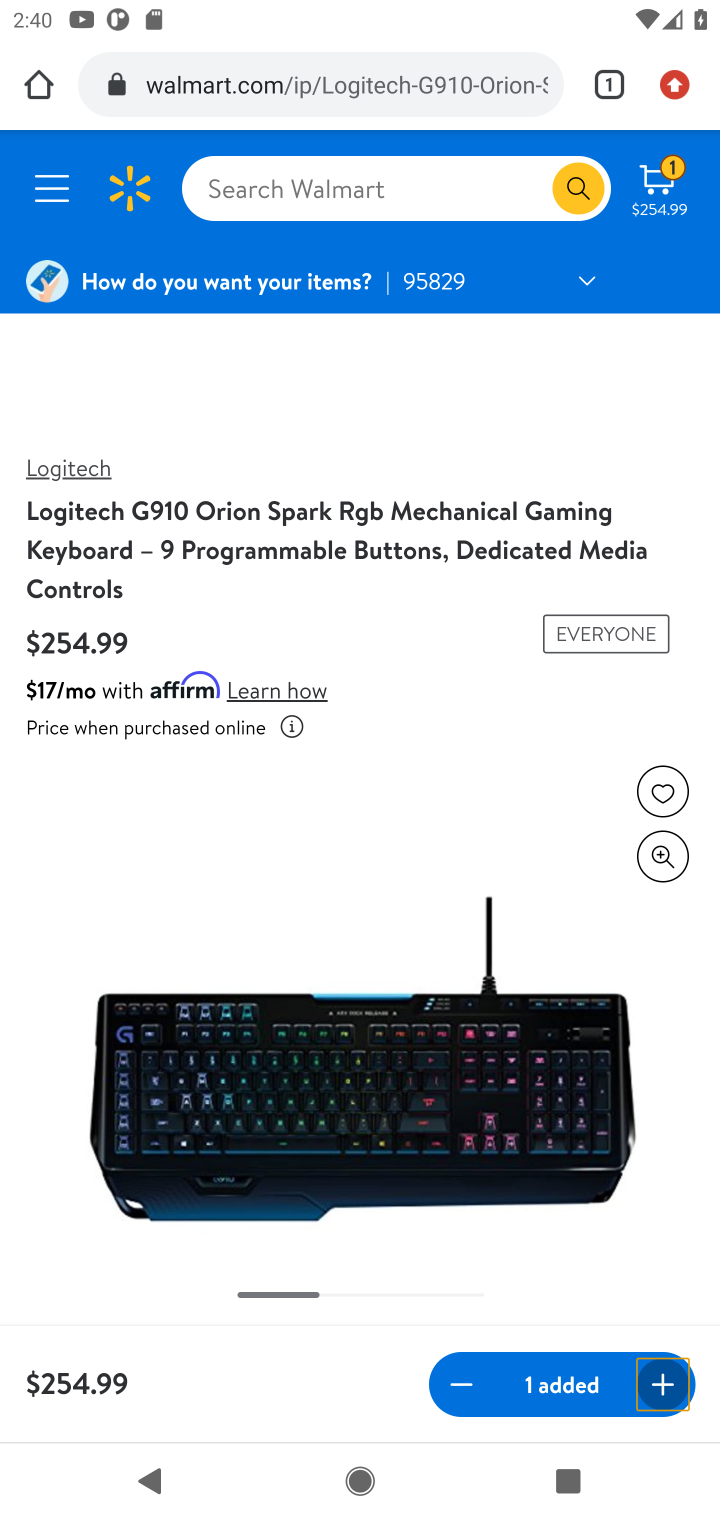
Step 30: click (659, 176)
Your task to perform on an android device: Clear the shopping cart on walmart.com. Search for logitech g910 on walmart.com, select the first entry, and add it to the cart. Image 31: 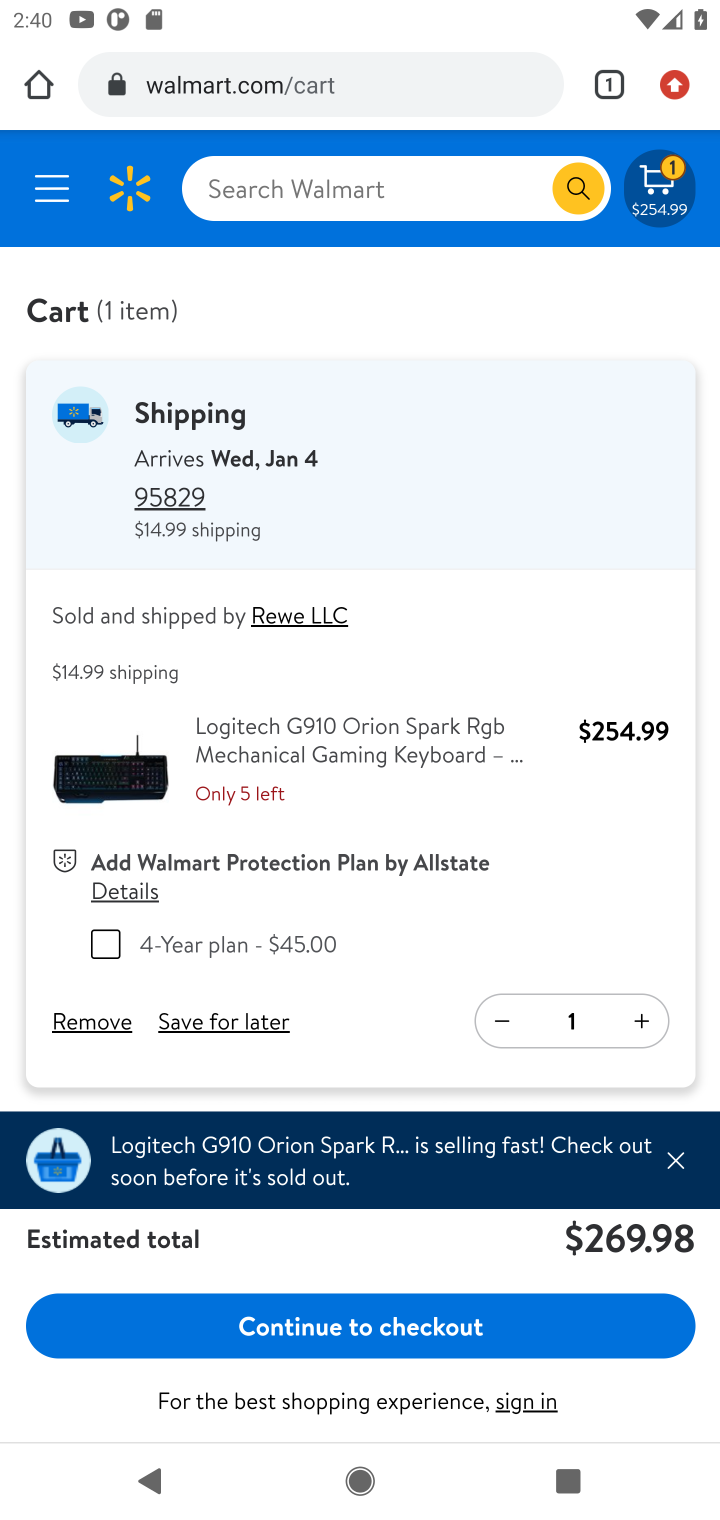
Step 31: click (379, 1332)
Your task to perform on an android device: Clear the shopping cart on walmart.com. Search for logitech g910 on walmart.com, select the first entry, and add it to the cart. Image 32: 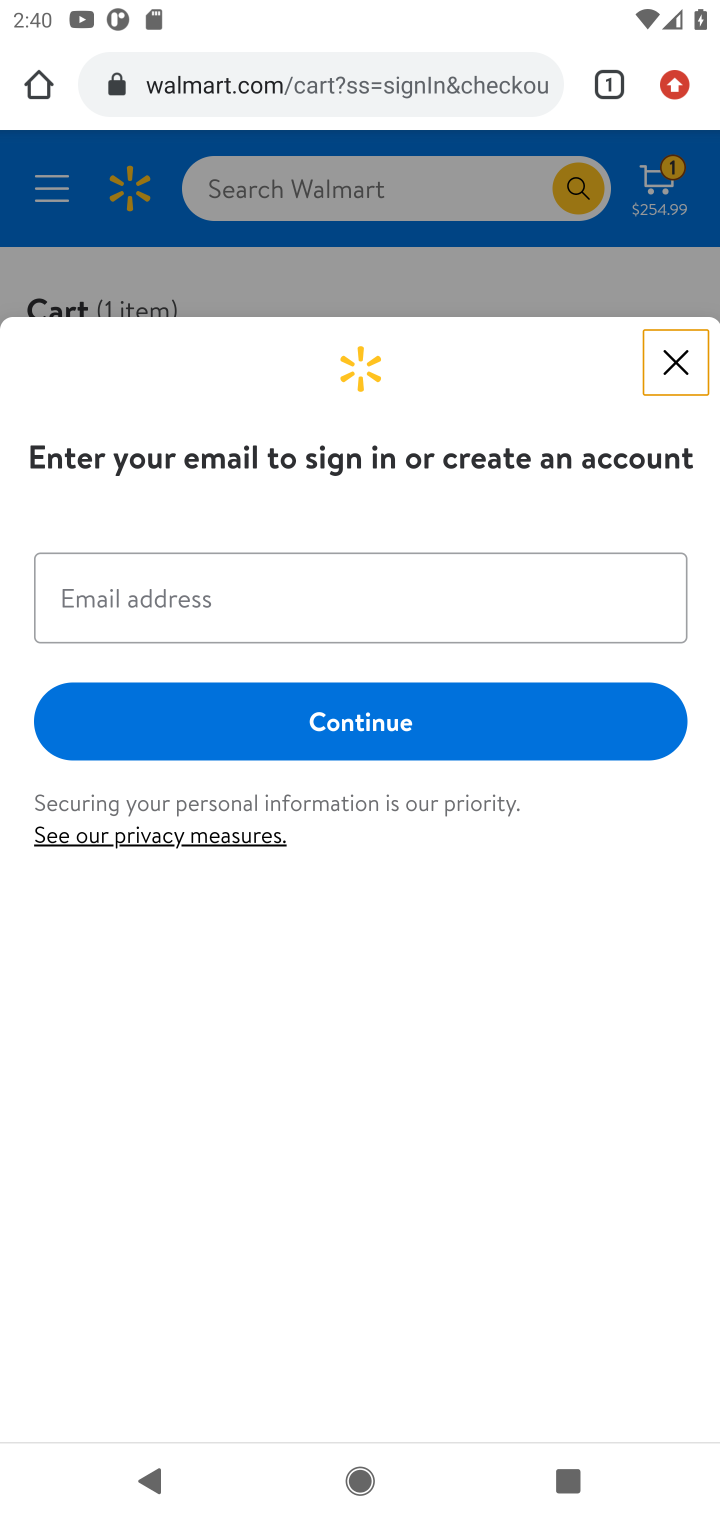
Step 32: task complete